Your task to perform on an android device: toggle notifications settings in the gmail app Image 0: 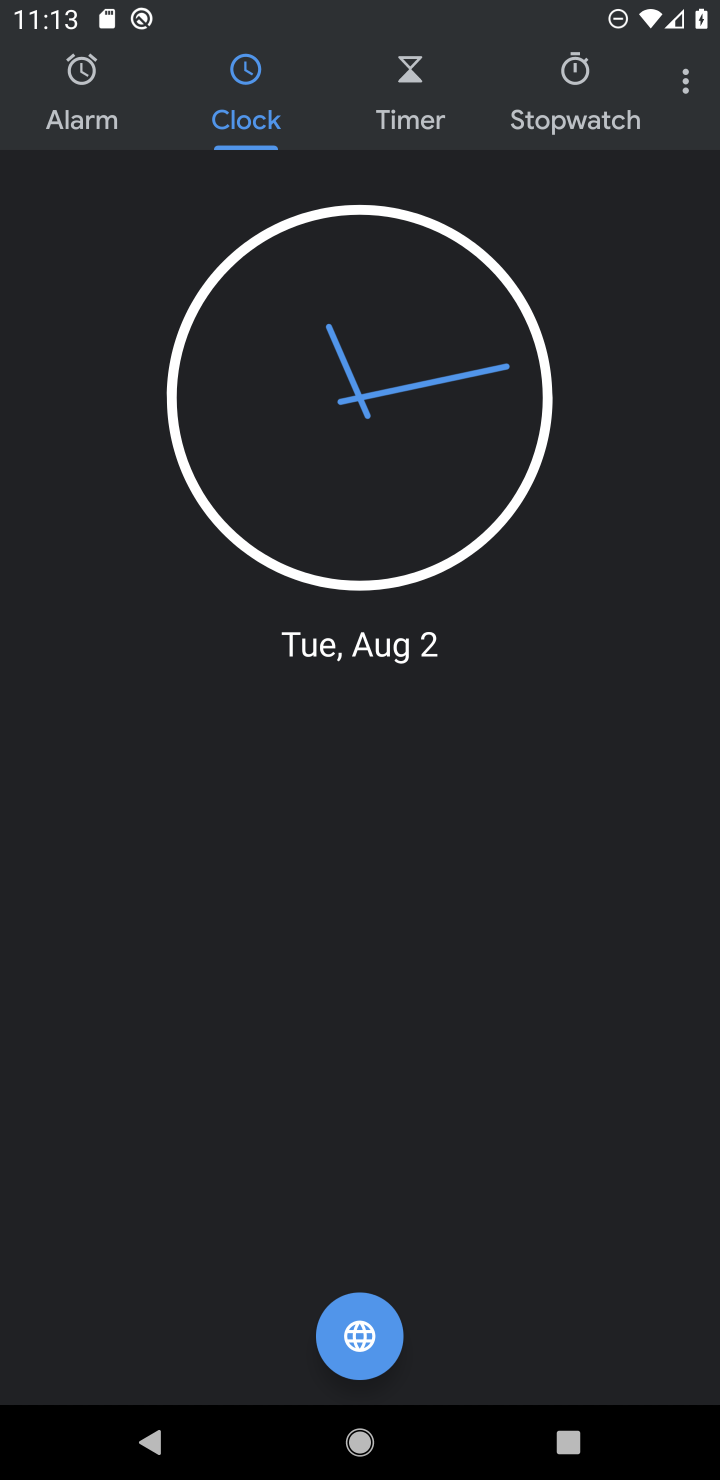
Step 0: press home button
Your task to perform on an android device: toggle notifications settings in the gmail app Image 1: 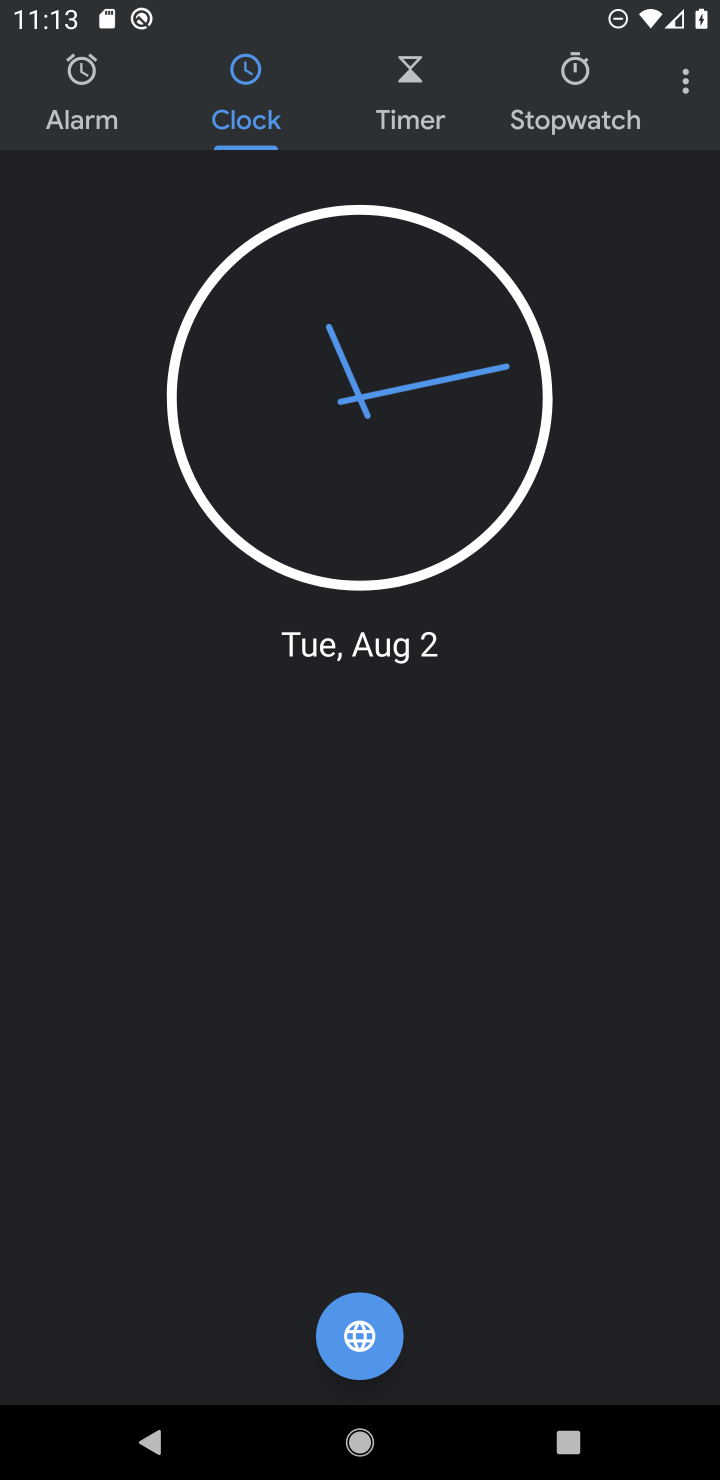
Step 1: click (529, 415)
Your task to perform on an android device: toggle notifications settings in the gmail app Image 2: 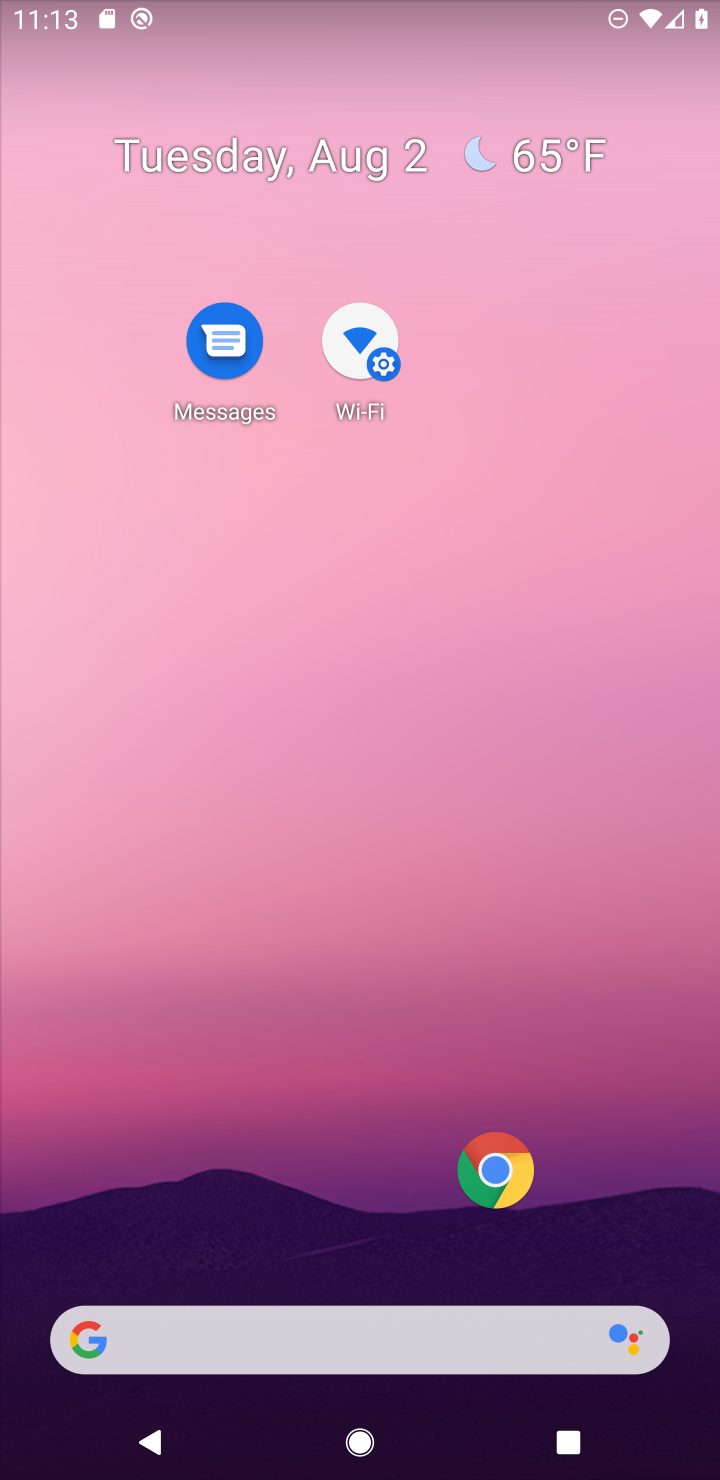
Step 2: drag from (452, 1038) to (452, 743)
Your task to perform on an android device: toggle notifications settings in the gmail app Image 3: 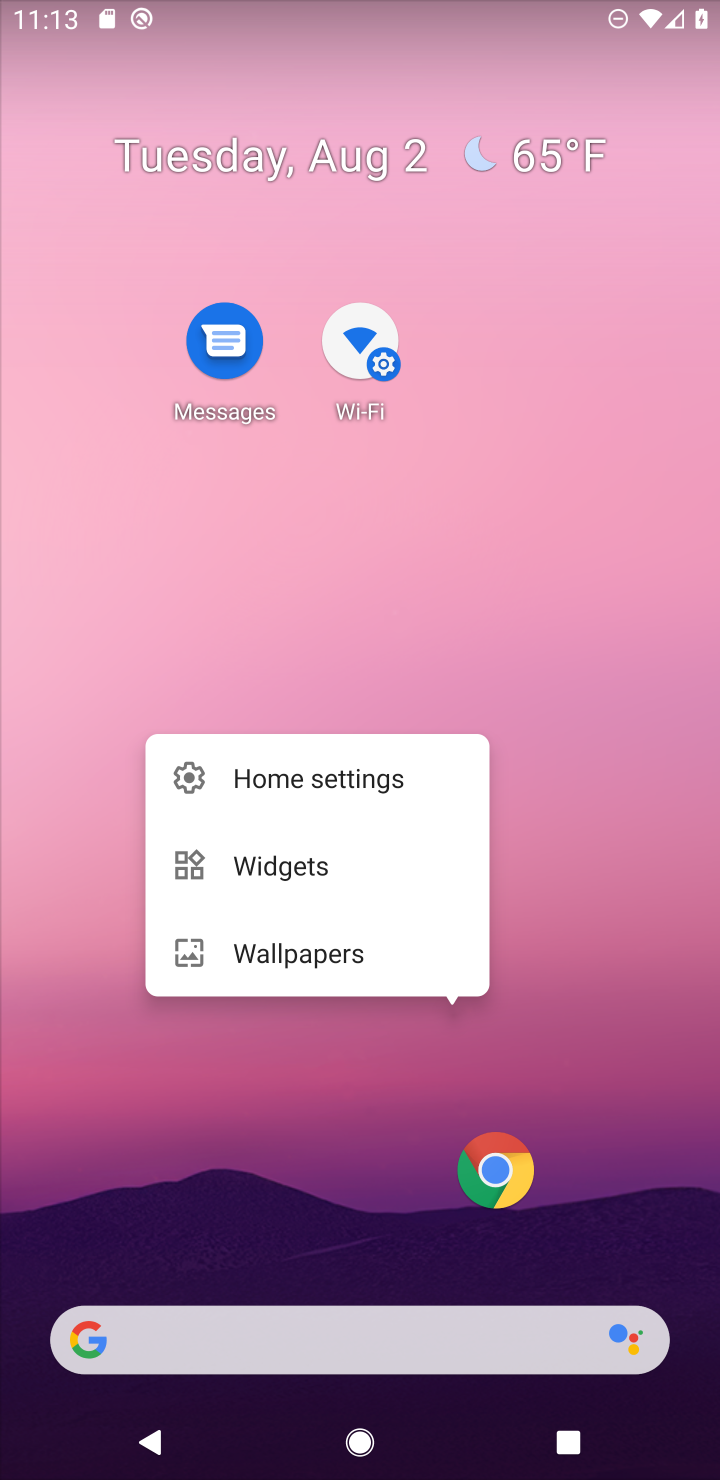
Step 3: click (363, 1170)
Your task to perform on an android device: toggle notifications settings in the gmail app Image 4: 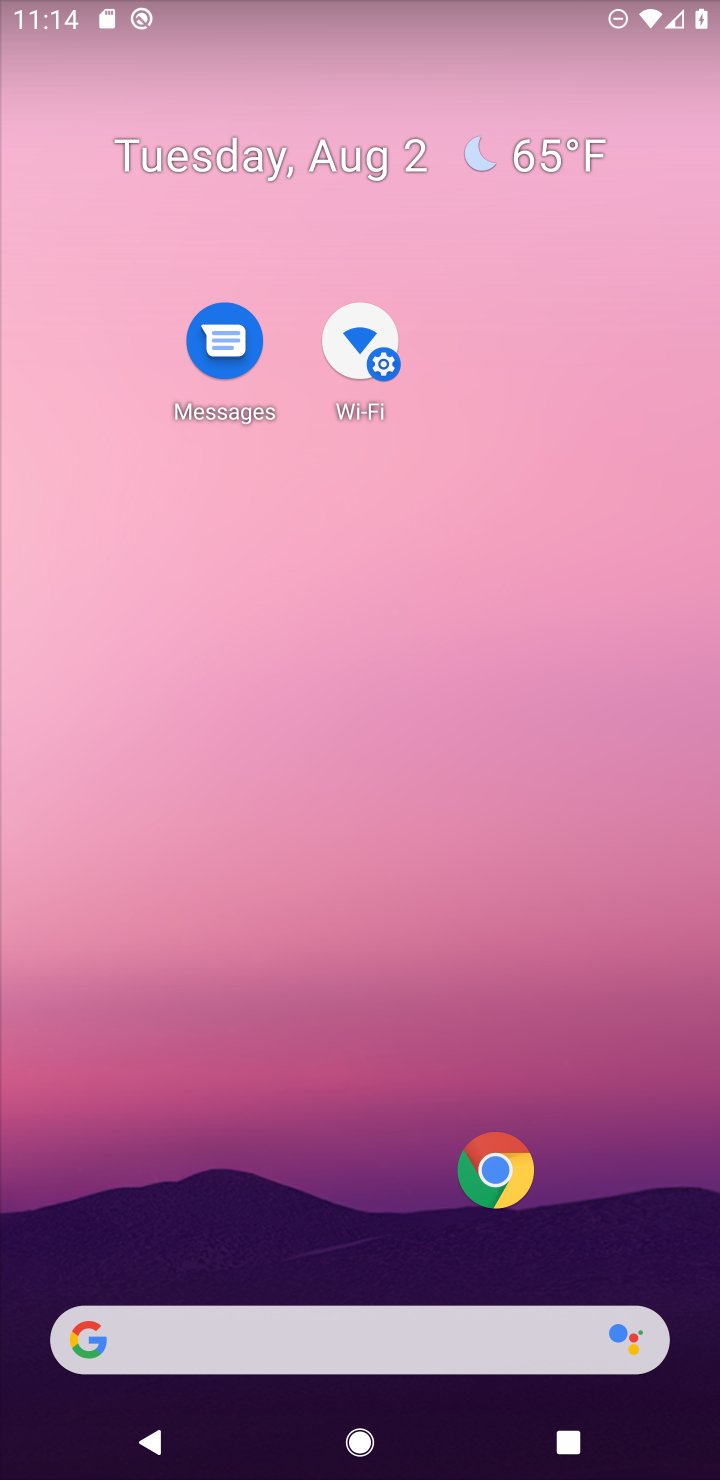
Step 4: drag from (324, 1060) to (347, 327)
Your task to perform on an android device: toggle notifications settings in the gmail app Image 5: 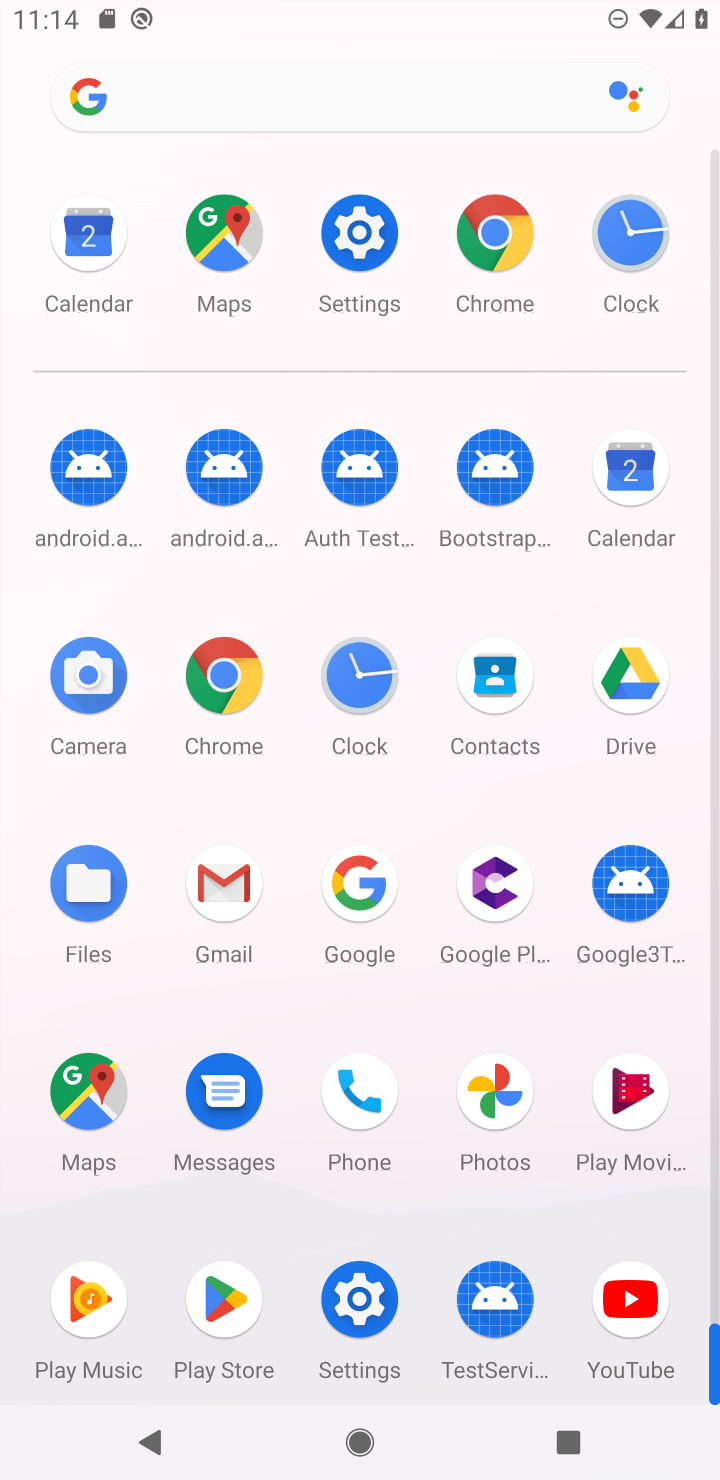
Step 5: click (213, 868)
Your task to perform on an android device: toggle notifications settings in the gmail app Image 6: 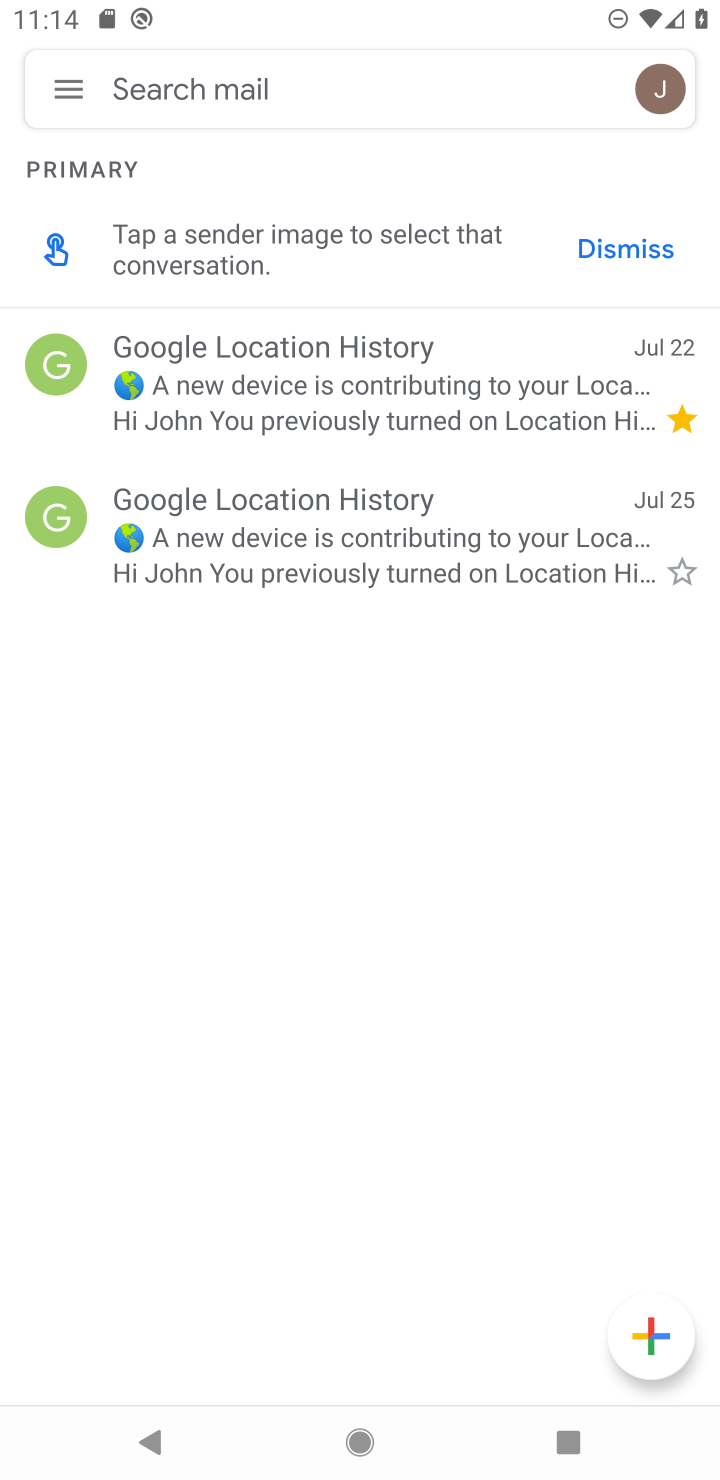
Step 6: drag from (396, 1052) to (471, 726)
Your task to perform on an android device: toggle notifications settings in the gmail app Image 7: 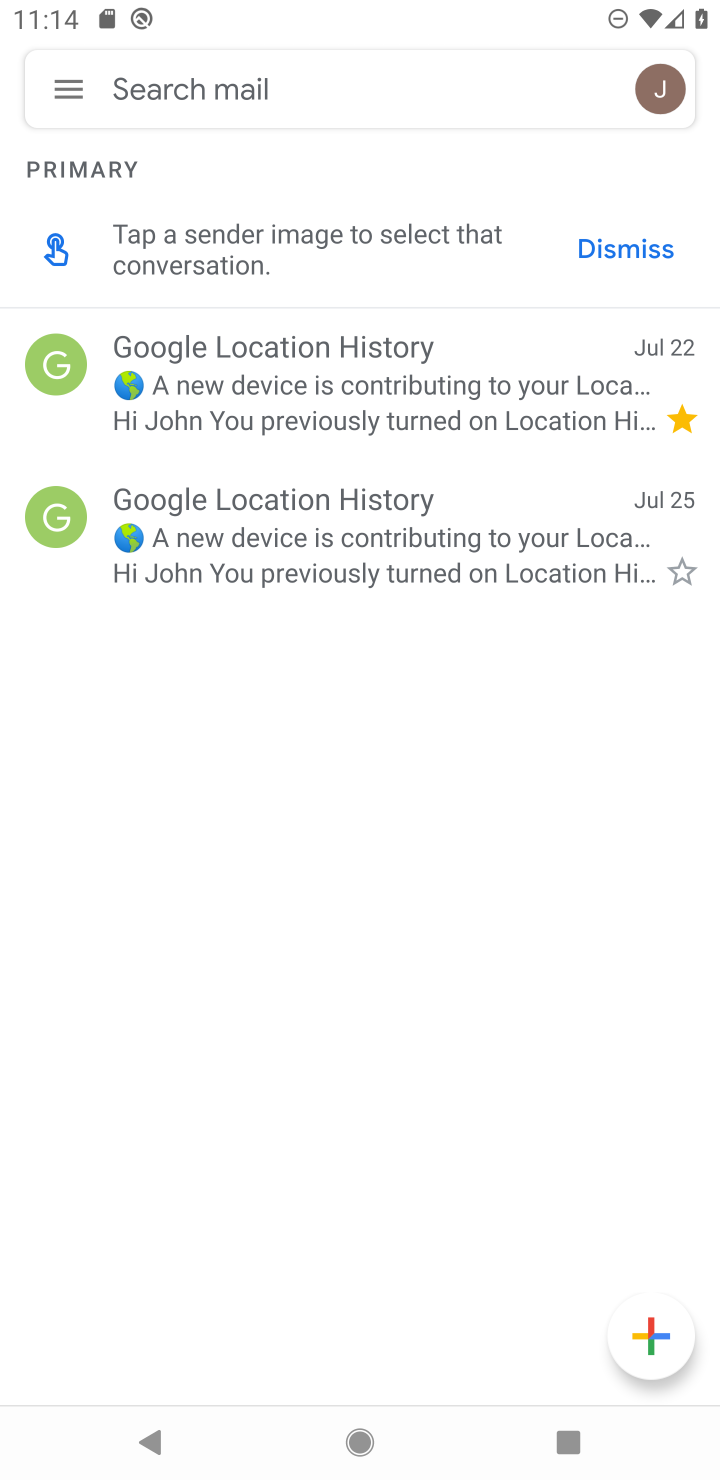
Step 7: click (65, 99)
Your task to perform on an android device: toggle notifications settings in the gmail app Image 8: 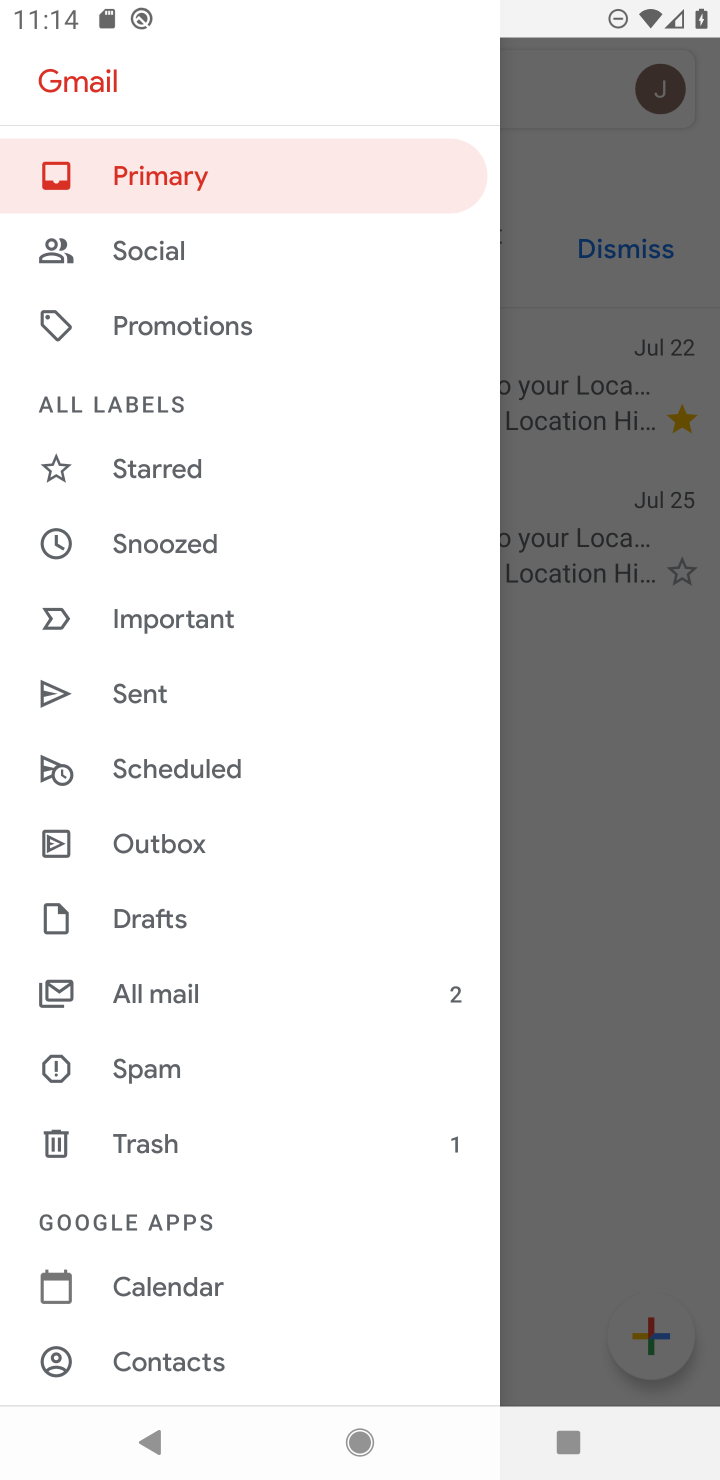
Step 8: drag from (224, 1163) to (378, 448)
Your task to perform on an android device: toggle notifications settings in the gmail app Image 9: 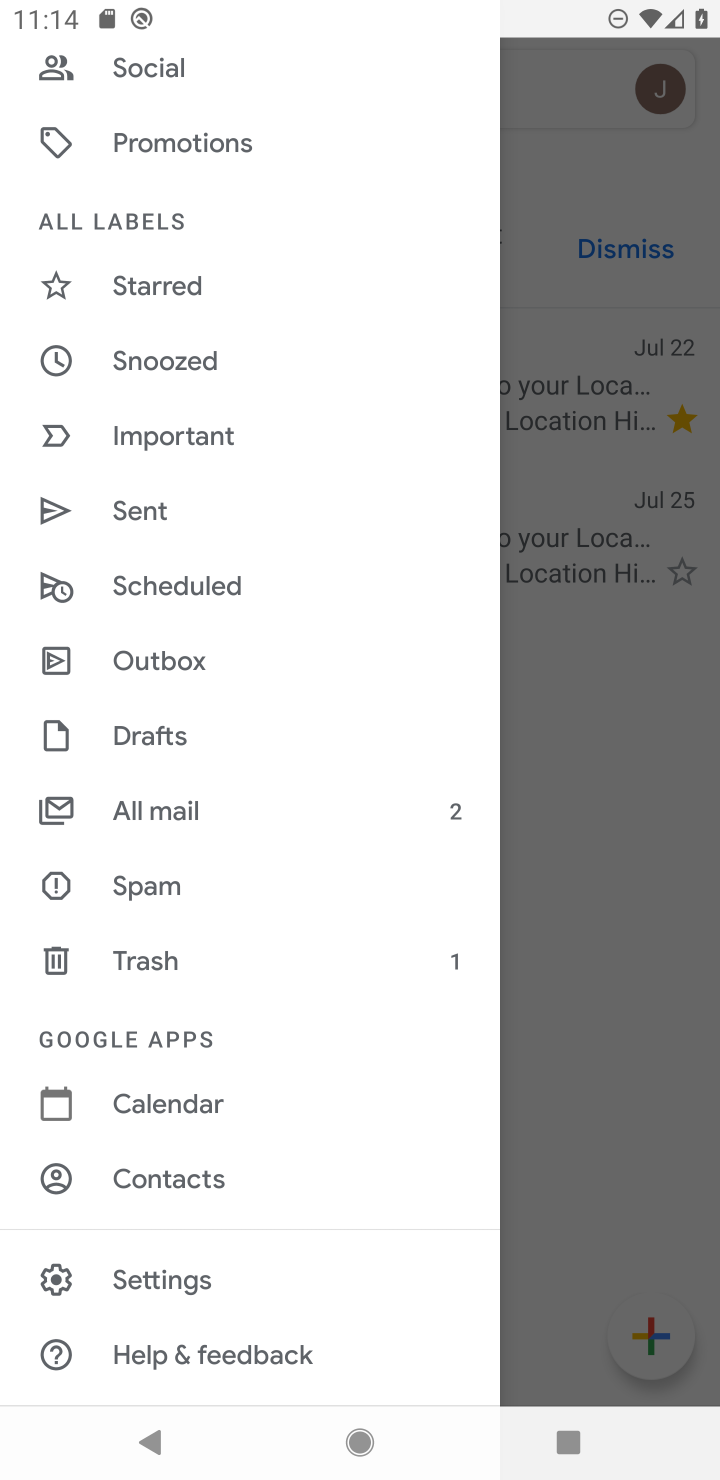
Step 9: click (143, 1277)
Your task to perform on an android device: toggle notifications settings in the gmail app Image 10: 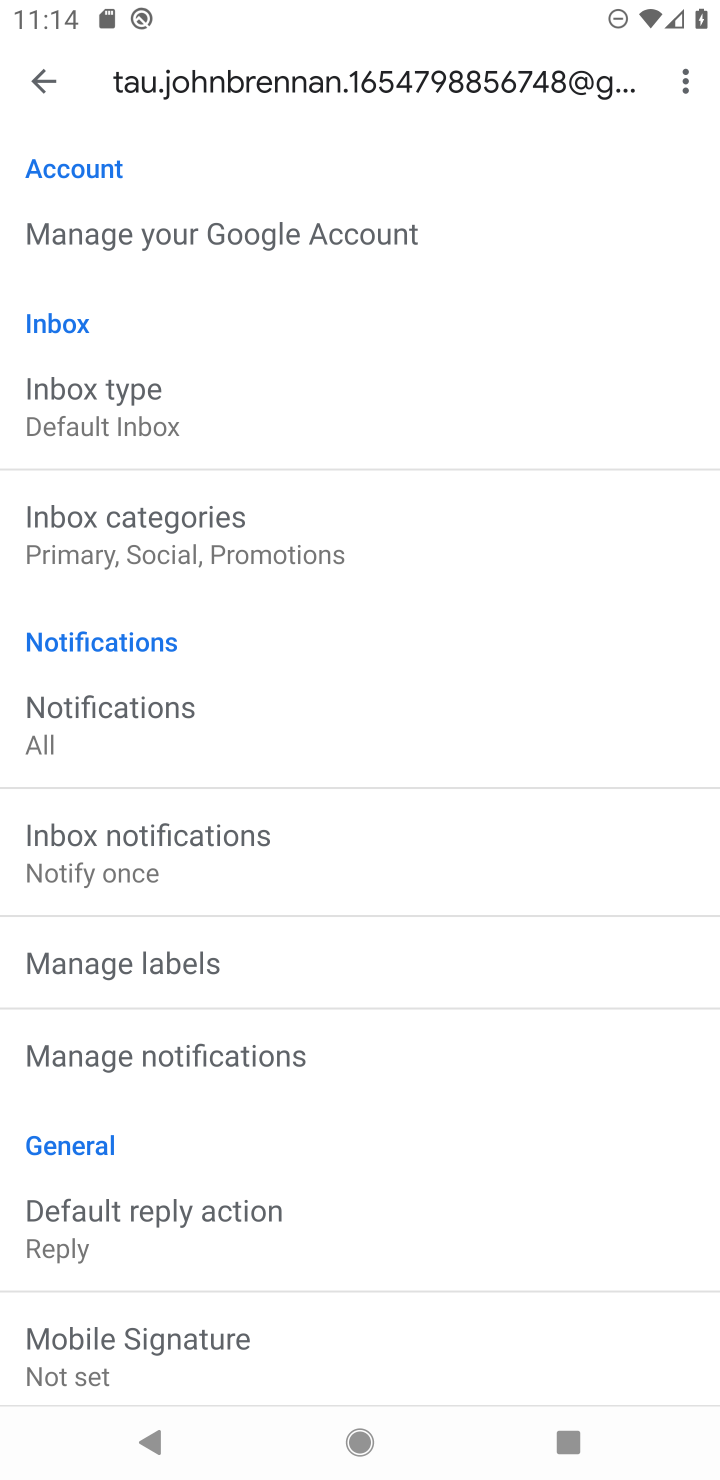
Step 10: drag from (330, 1257) to (398, 423)
Your task to perform on an android device: toggle notifications settings in the gmail app Image 11: 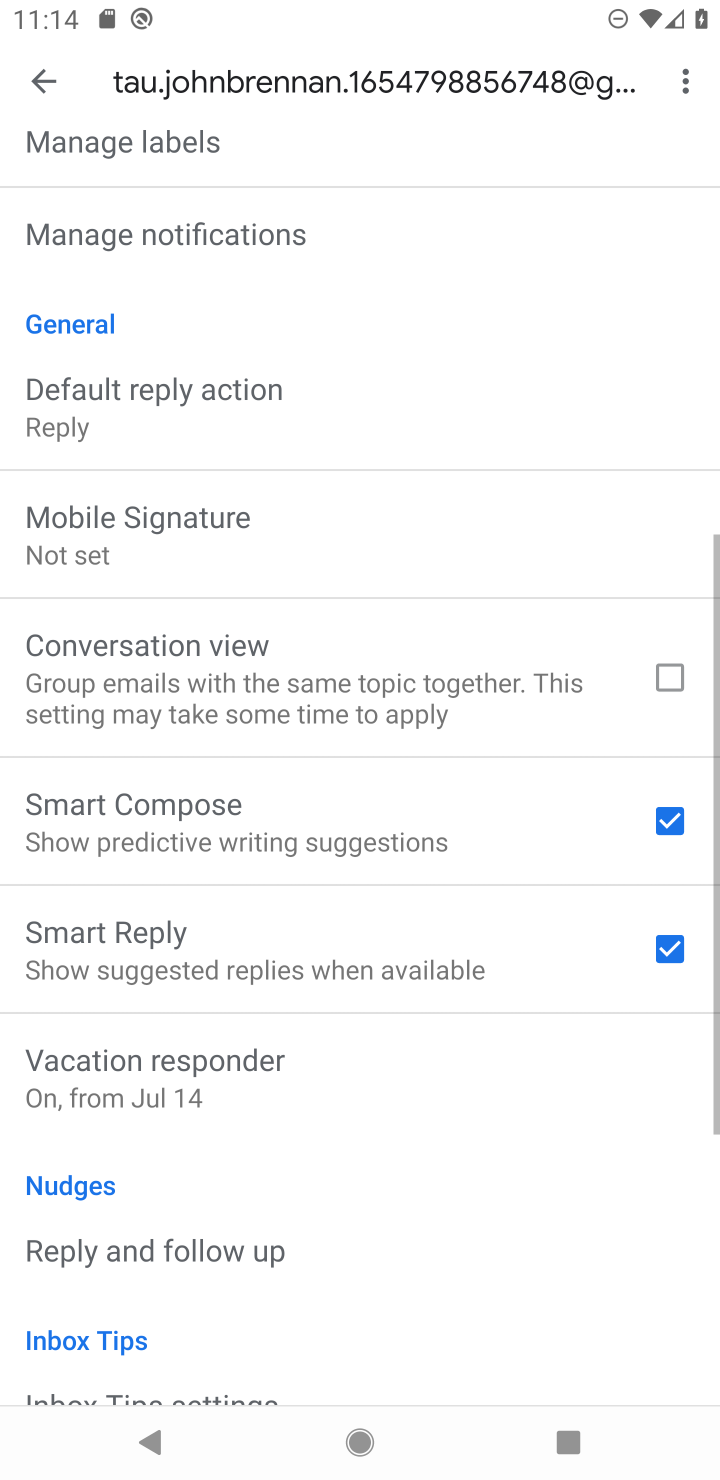
Step 11: drag from (335, 1148) to (330, 605)
Your task to perform on an android device: toggle notifications settings in the gmail app Image 12: 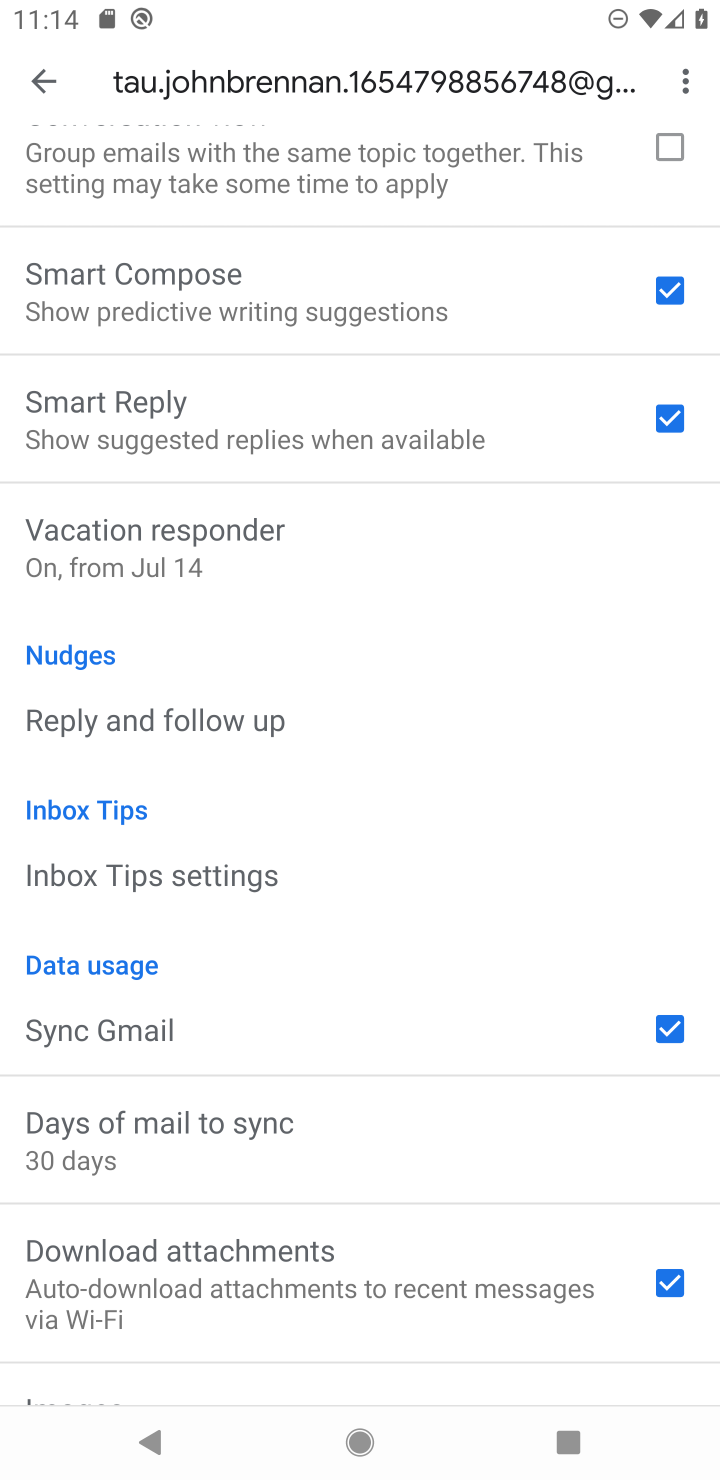
Step 12: drag from (276, 948) to (259, 556)
Your task to perform on an android device: toggle notifications settings in the gmail app Image 13: 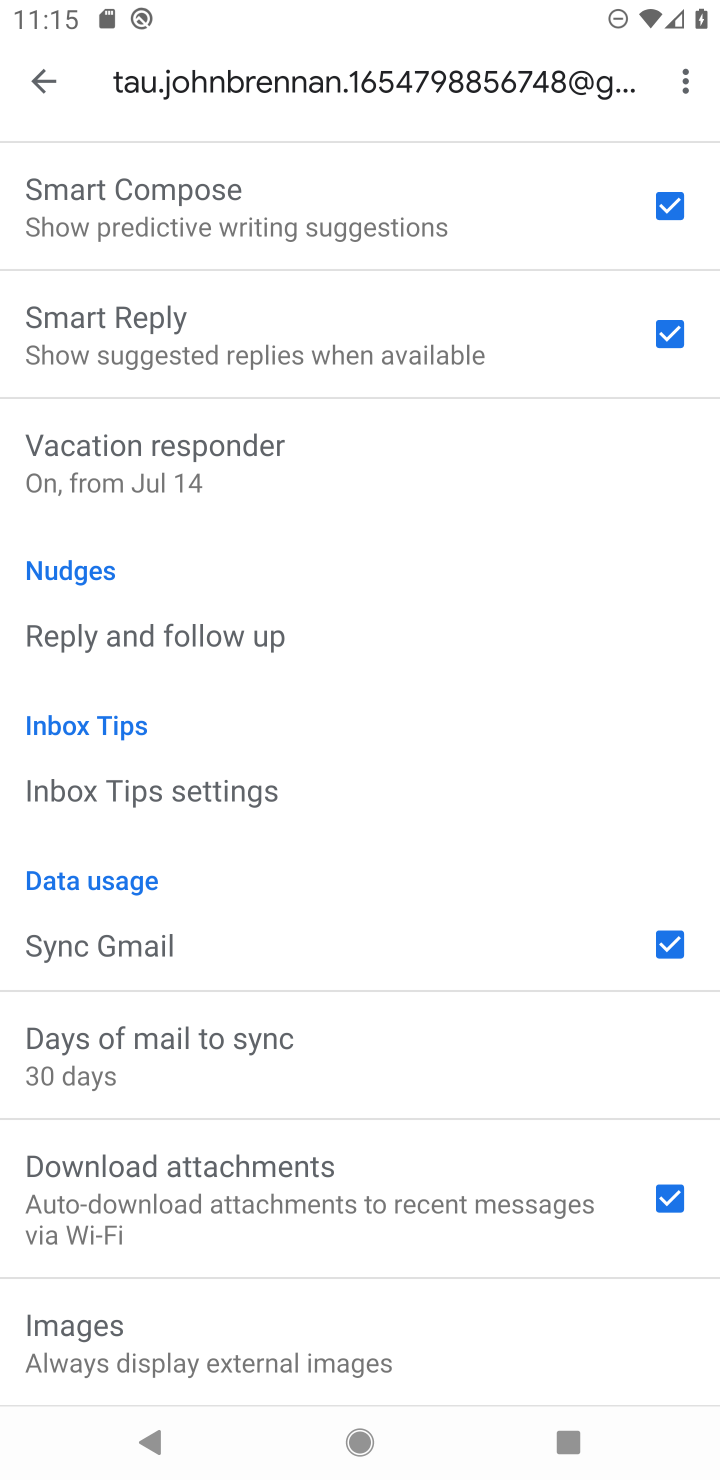
Step 13: drag from (276, 1148) to (322, 654)
Your task to perform on an android device: toggle notifications settings in the gmail app Image 14: 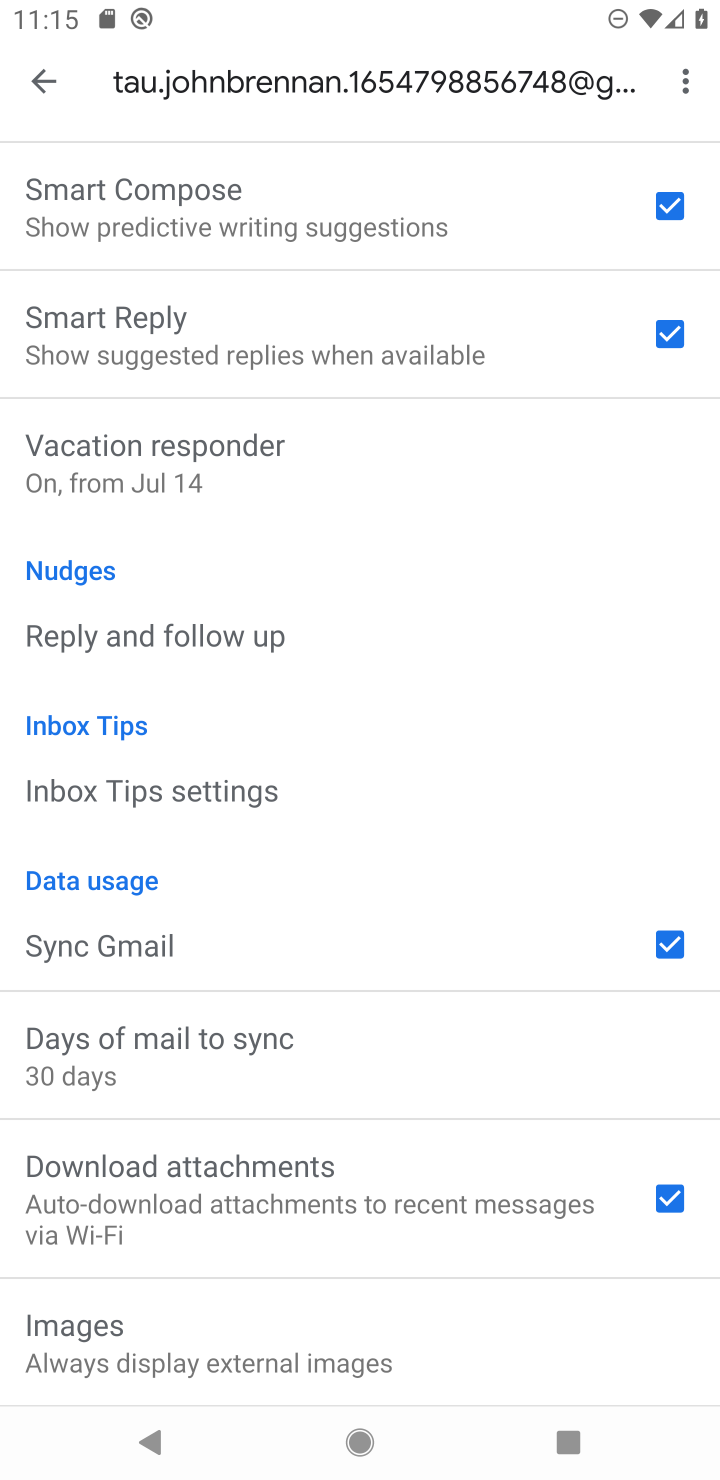
Step 14: drag from (308, 1245) to (391, 685)
Your task to perform on an android device: toggle notifications settings in the gmail app Image 15: 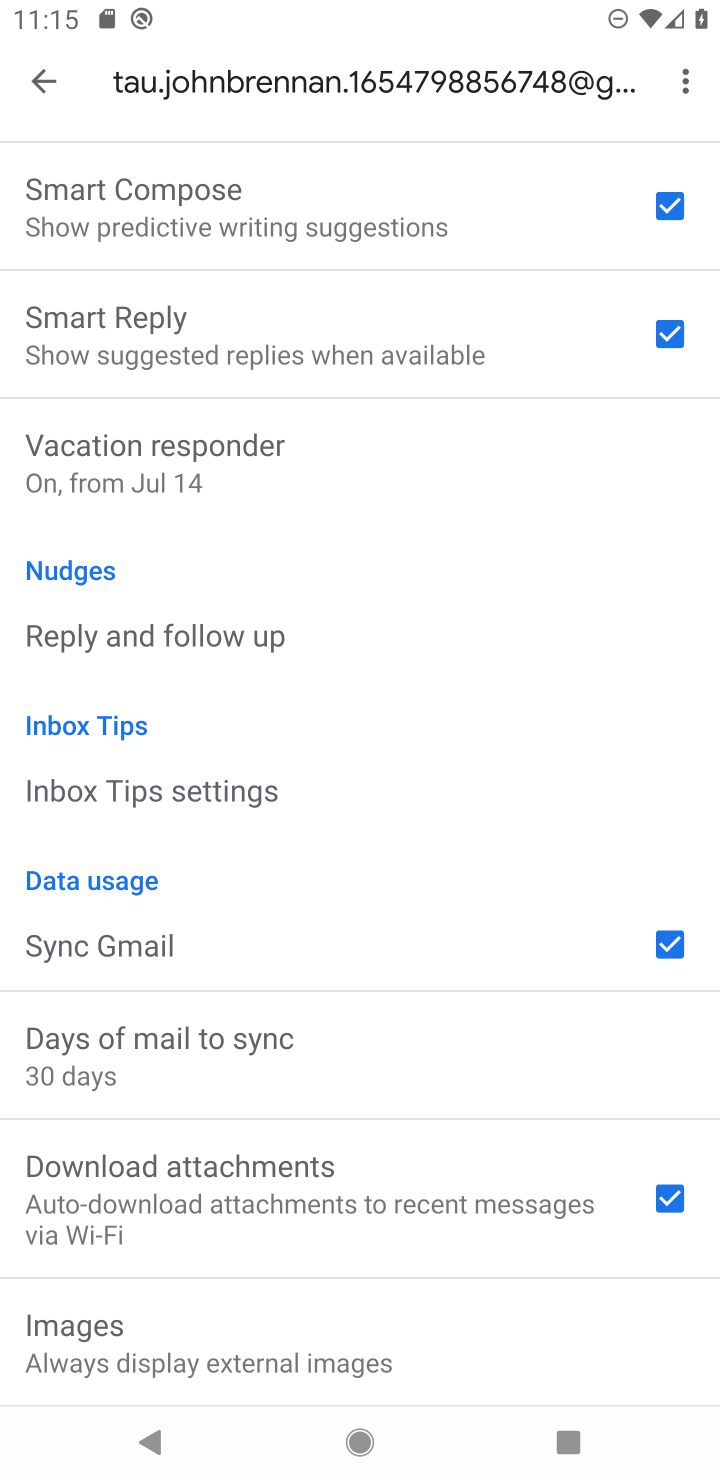
Step 15: drag from (301, 1224) to (359, 611)
Your task to perform on an android device: toggle notifications settings in the gmail app Image 16: 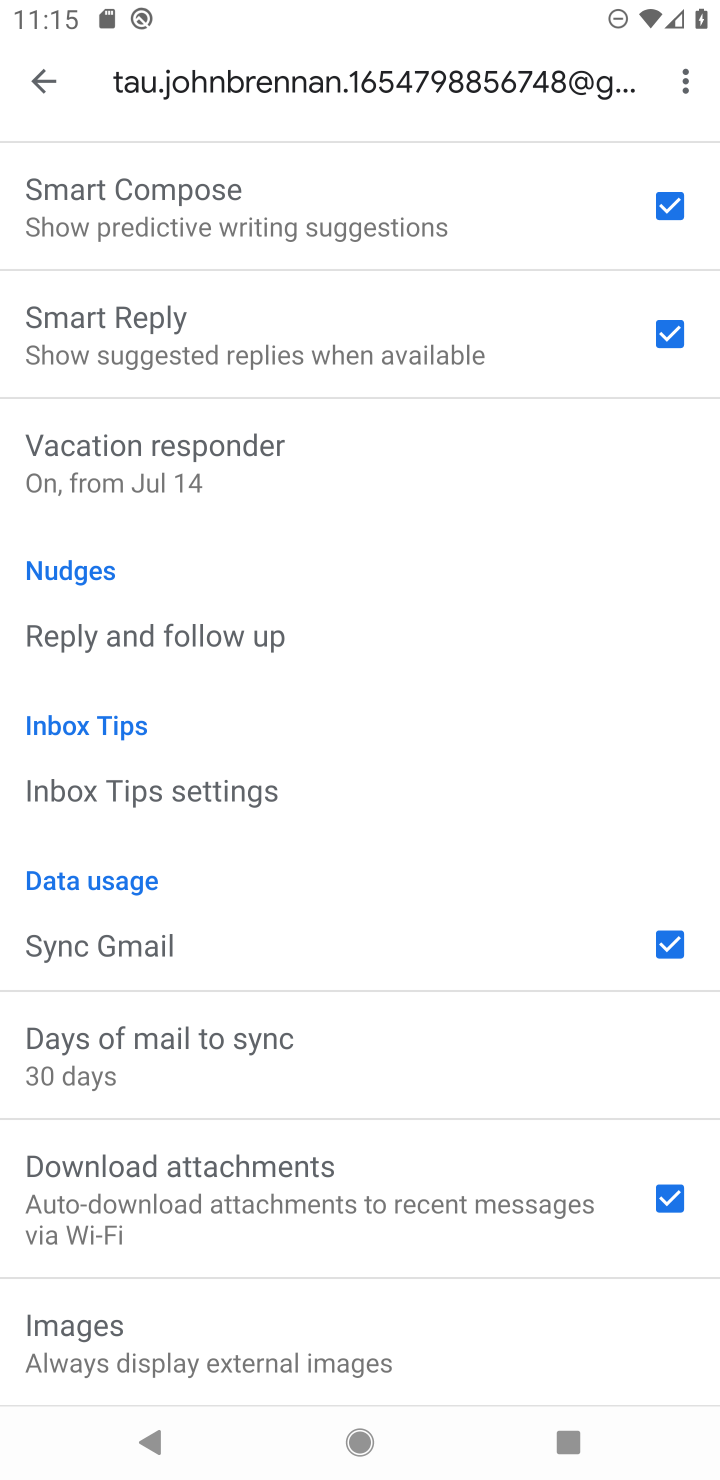
Step 16: drag from (379, 993) to (418, 450)
Your task to perform on an android device: toggle notifications settings in the gmail app Image 17: 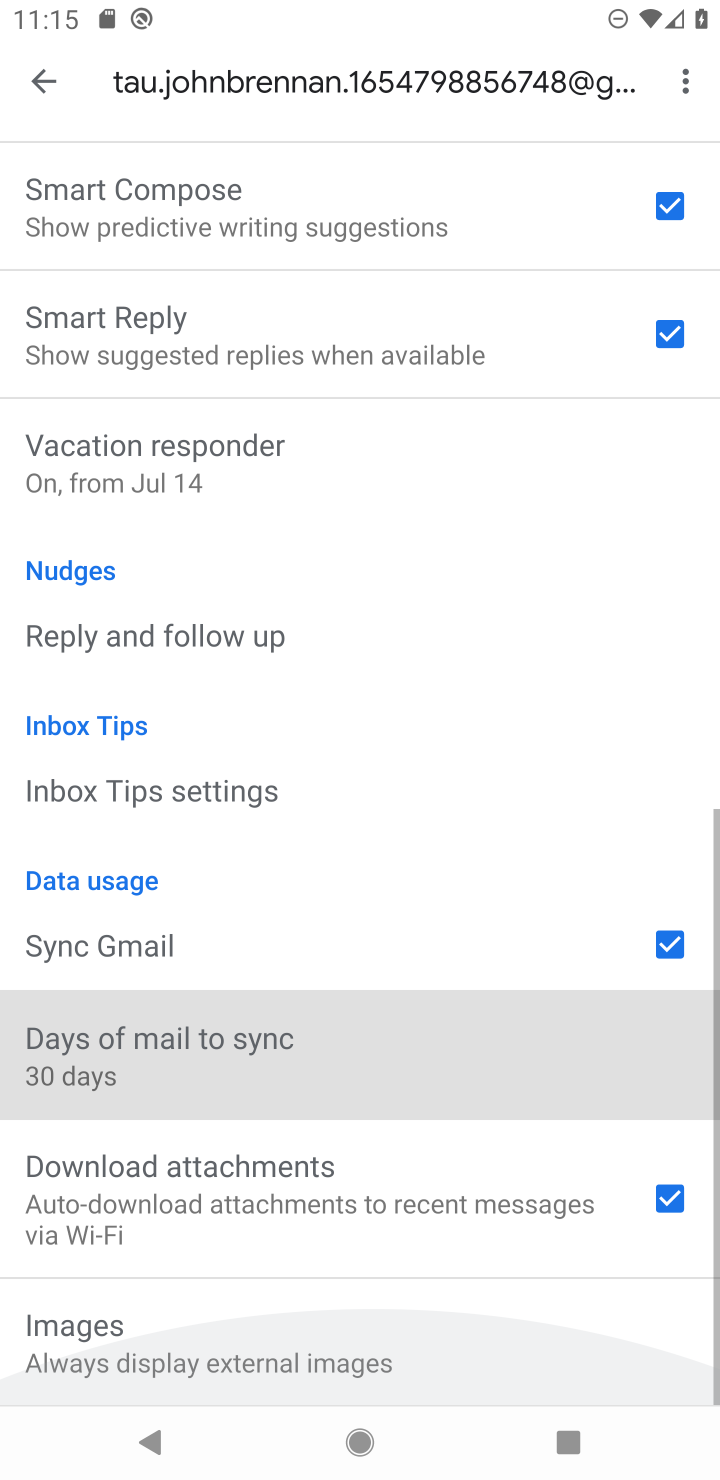
Step 17: drag from (417, 476) to (365, 1376)
Your task to perform on an android device: toggle notifications settings in the gmail app Image 18: 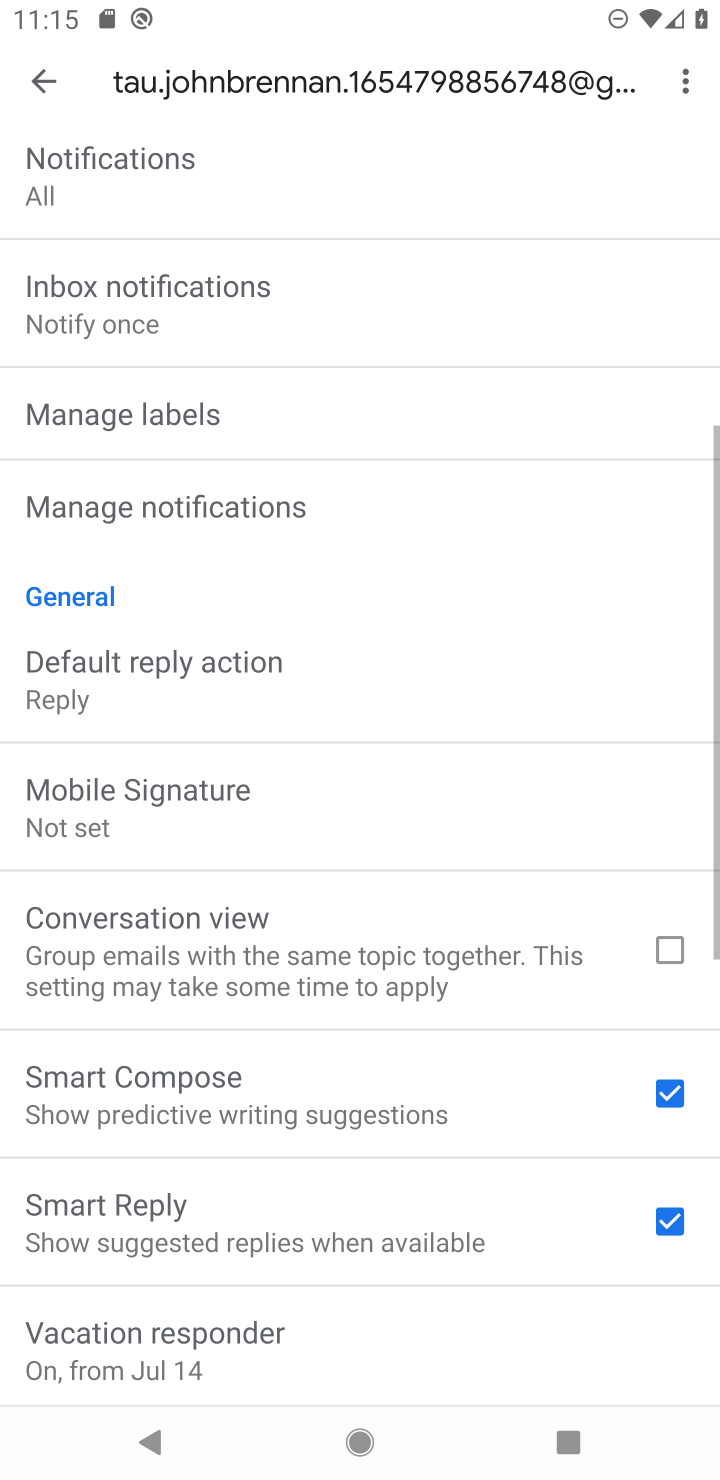
Step 18: drag from (519, 1088) to (505, 599)
Your task to perform on an android device: toggle notifications settings in the gmail app Image 19: 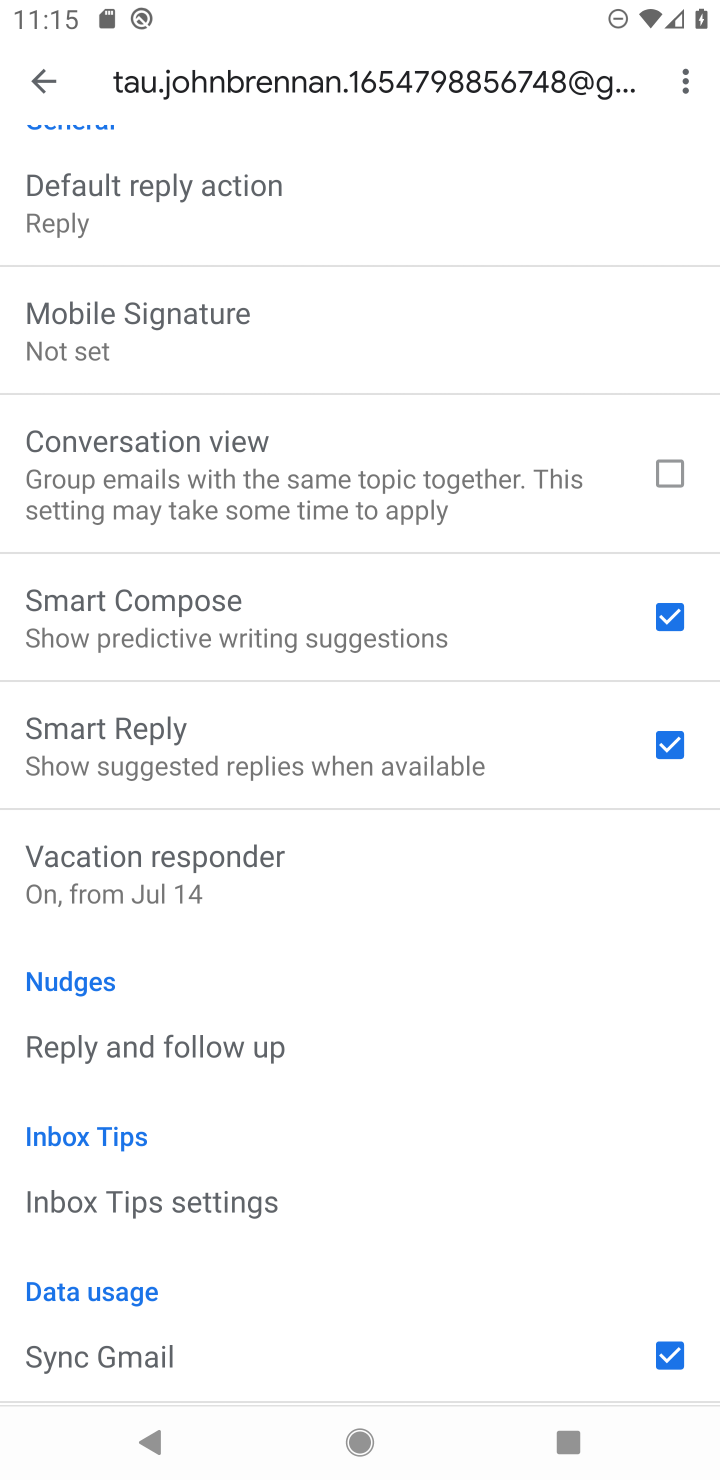
Step 19: drag from (252, 950) to (500, 282)
Your task to perform on an android device: toggle notifications settings in the gmail app Image 20: 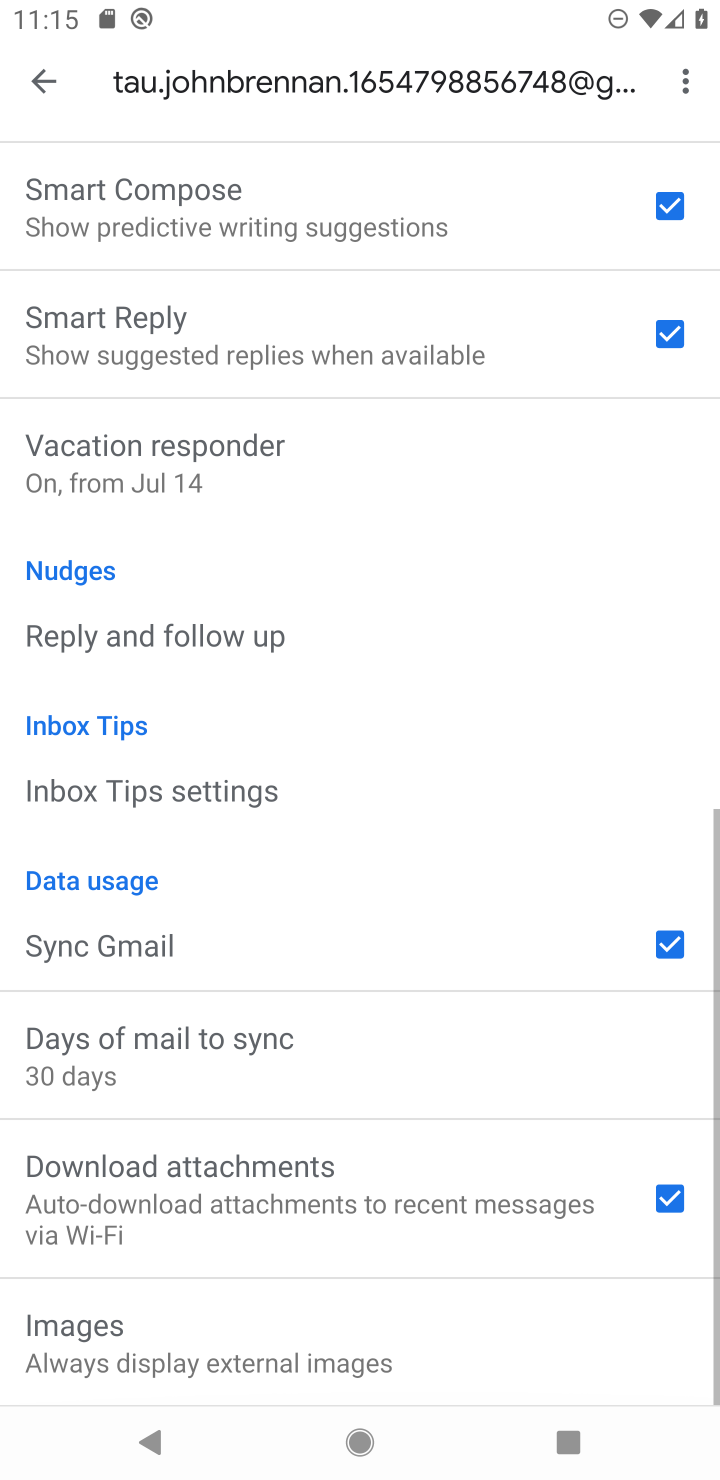
Step 20: drag from (295, 983) to (582, 1476)
Your task to perform on an android device: toggle notifications settings in the gmail app Image 21: 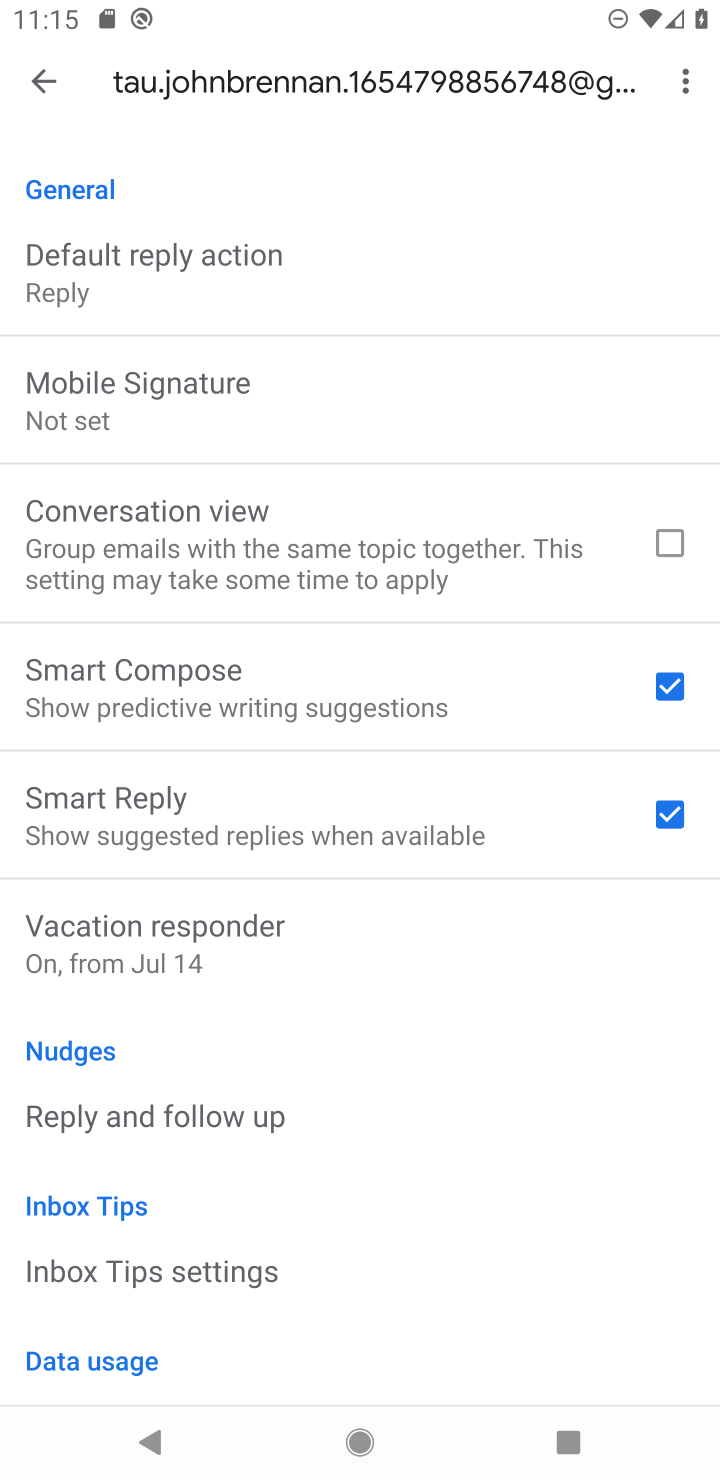
Step 21: drag from (408, 513) to (557, 1479)
Your task to perform on an android device: toggle notifications settings in the gmail app Image 22: 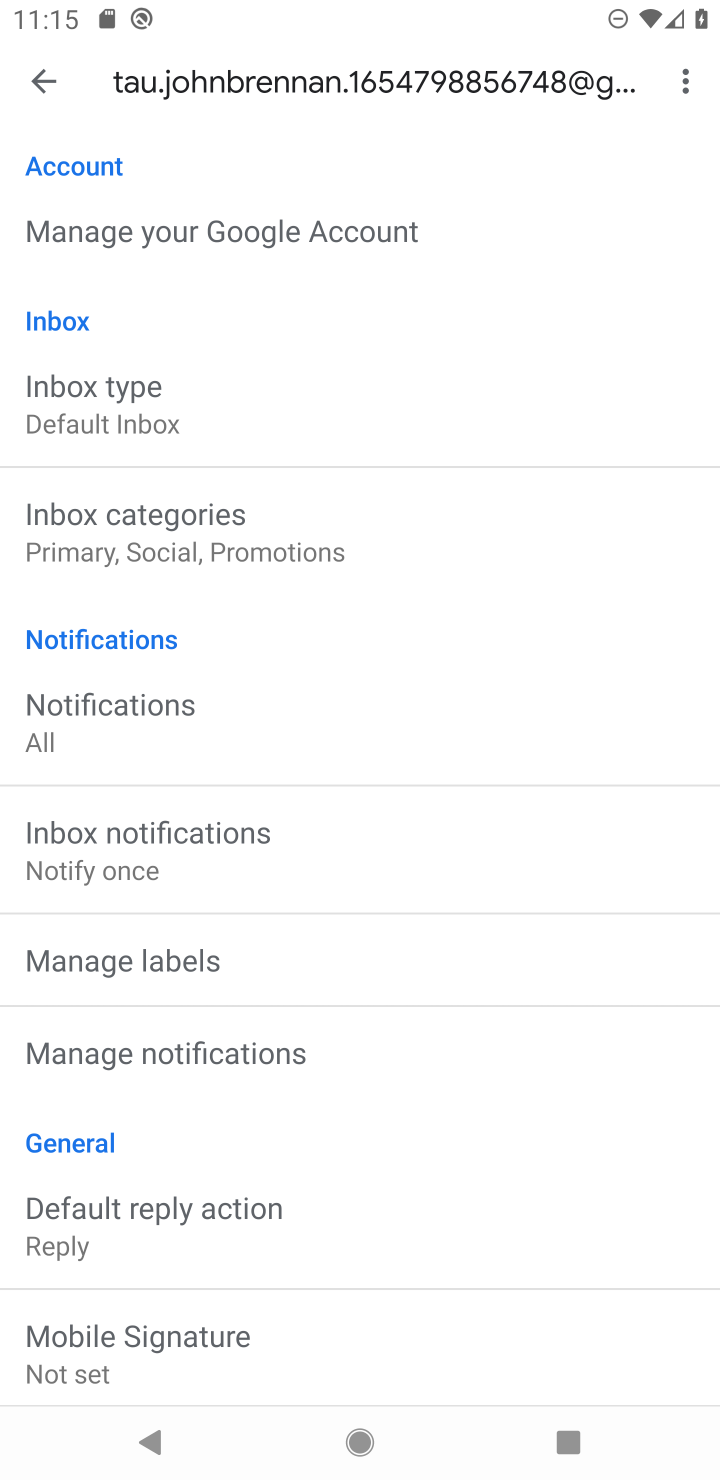
Step 22: click (187, 1056)
Your task to perform on an android device: toggle notifications settings in the gmail app Image 23: 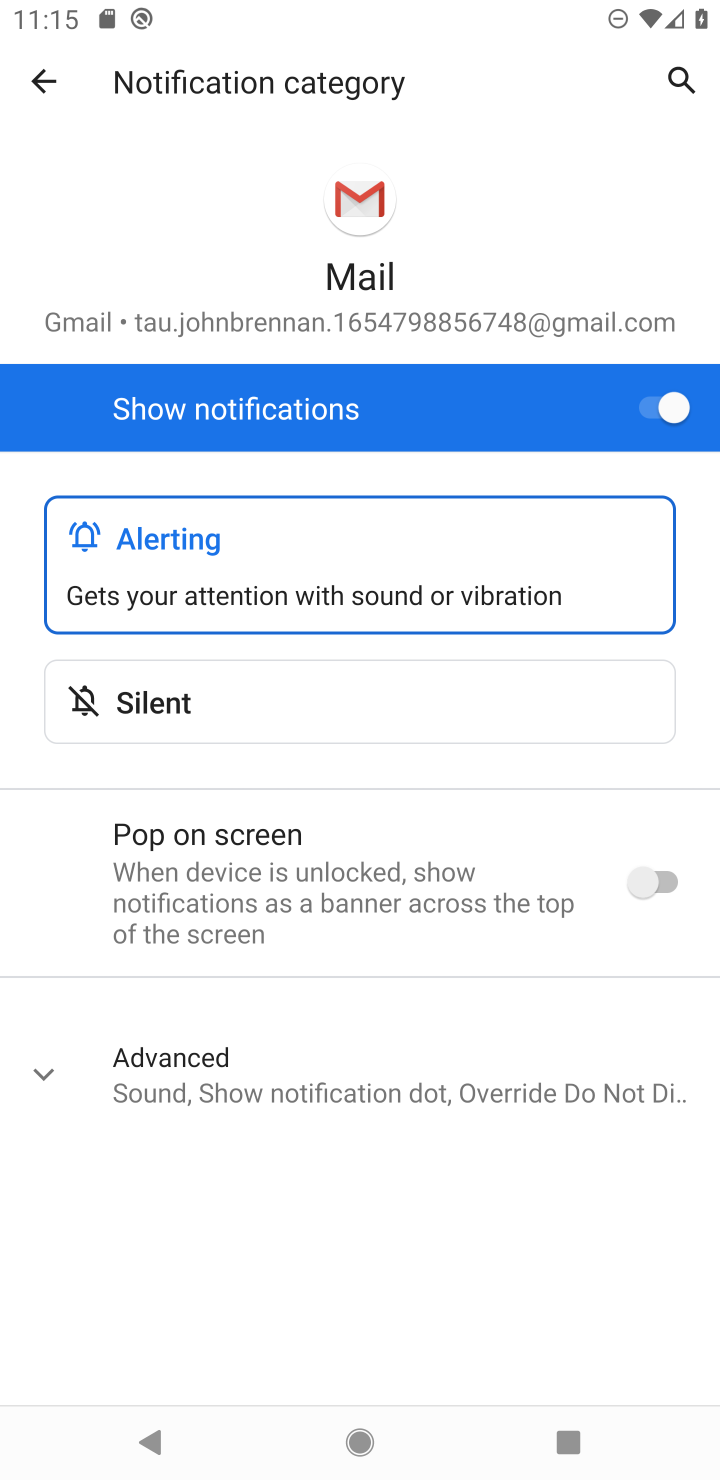
Step 23: drag from (425, 1209) to (371, 747)
Your task to perform on an android device: toggle notifications settings in the gmail app Image 24: 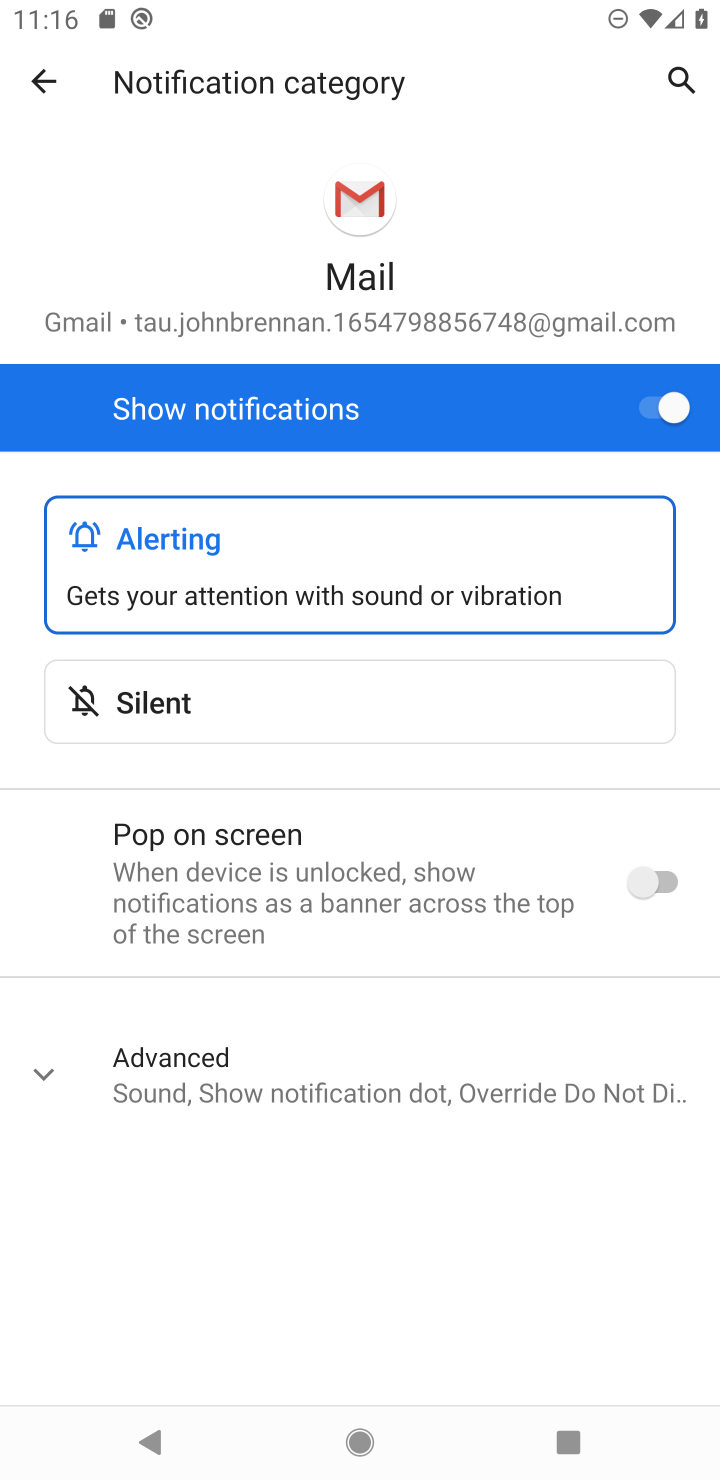
Step 24: drag from (501, 1403) to (718, 769)
Your task to perform on an android device: toggle notifications settings in the gmail app Image 25: 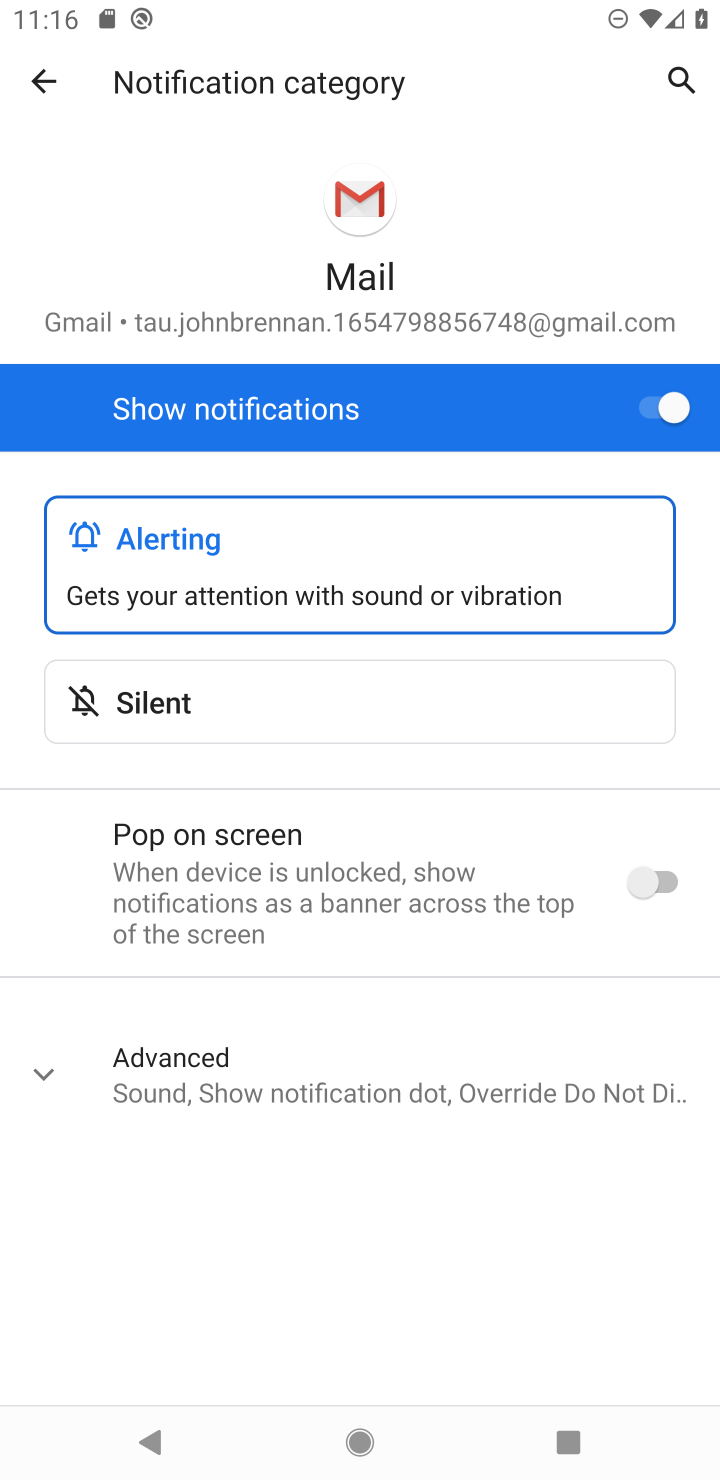
Step 25: drag from (483, 429) to (423, 1153)
Your task to perform on an android device: toggle notifications settings in the gmail app Image 26: 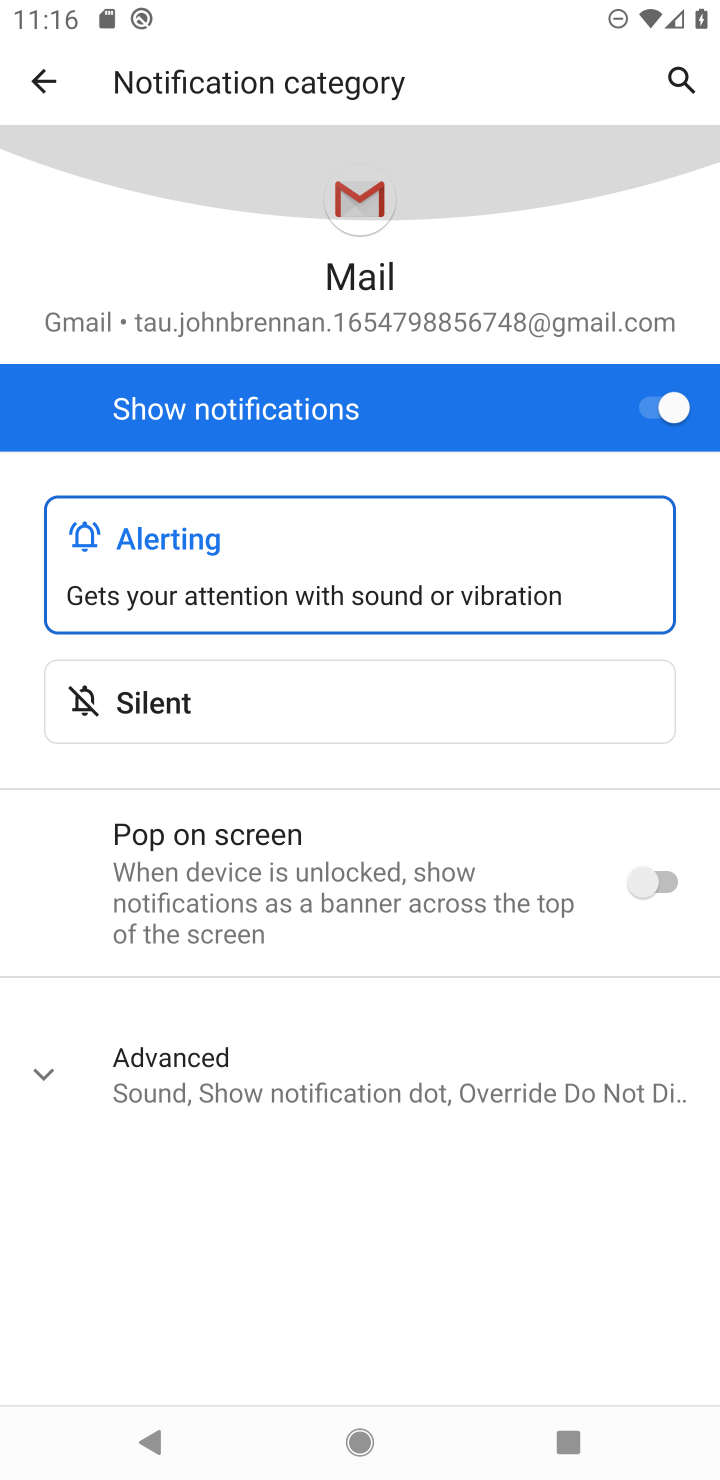
Step 26: drag from (391, 1130) to (487, 626)
Your task to perform on an android device: toggle notifications settings in the gmail app Image 27: 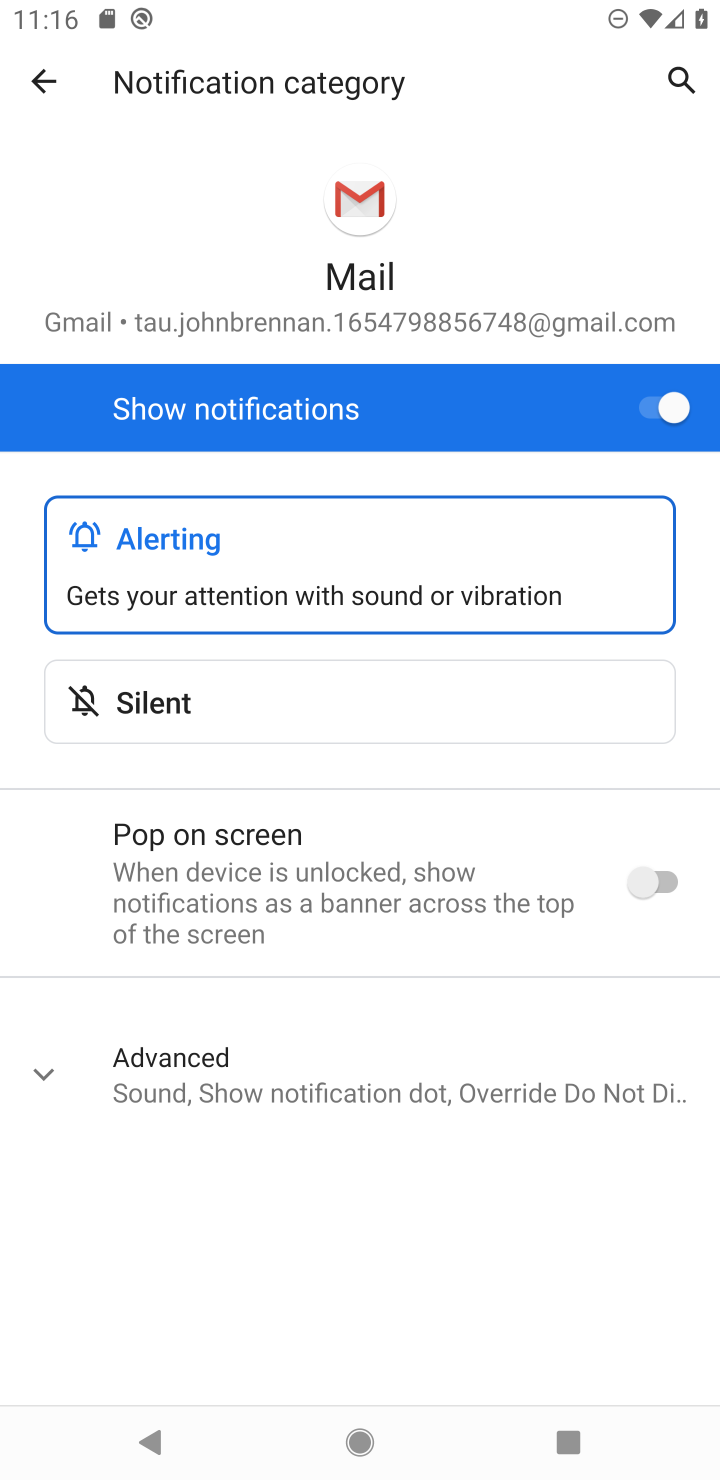
Step 27: drag from (270, 1328) to (428, 669)
Your task to perform on an android device: toggle notifications settings in the gmail app Image 28: 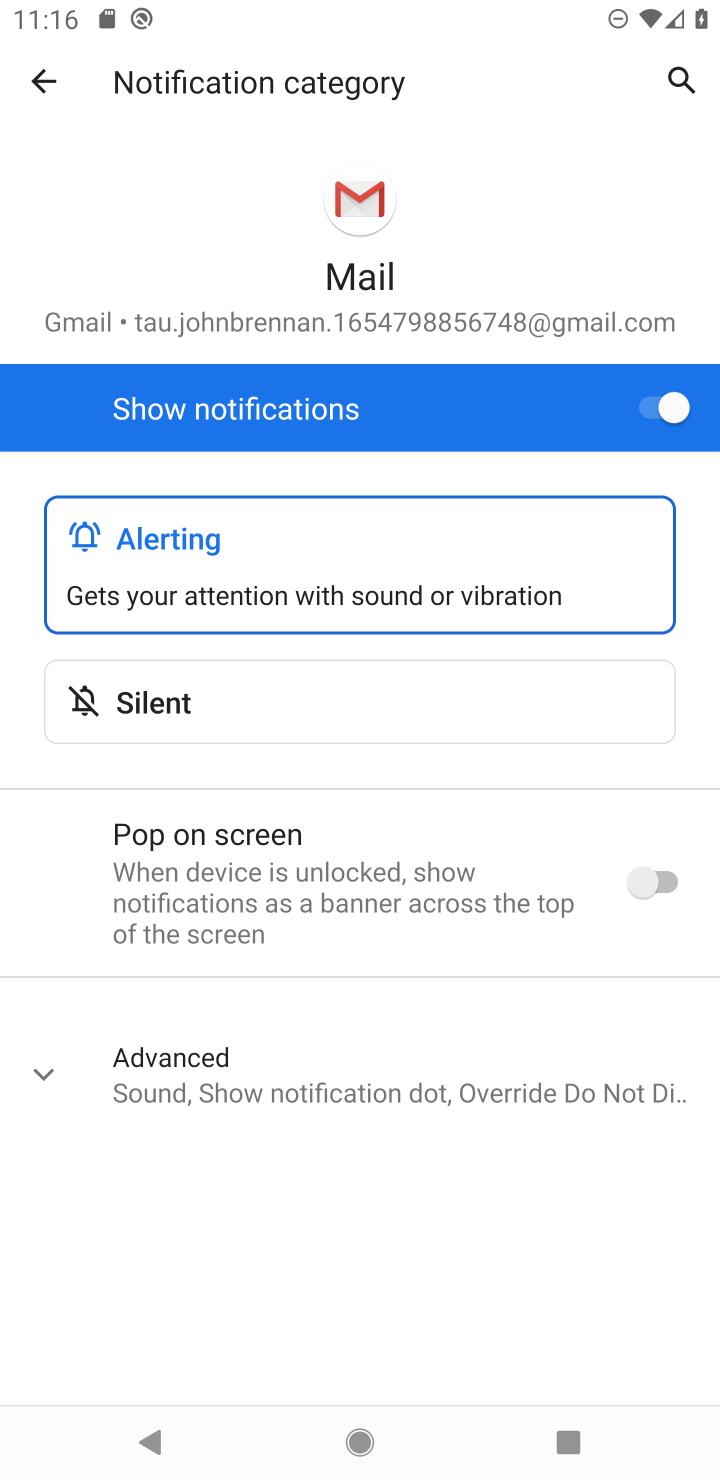
Step 28: click (98, 1085)
Your task to perform on an android device: toggle notifications settings in the gmail app Image 29: 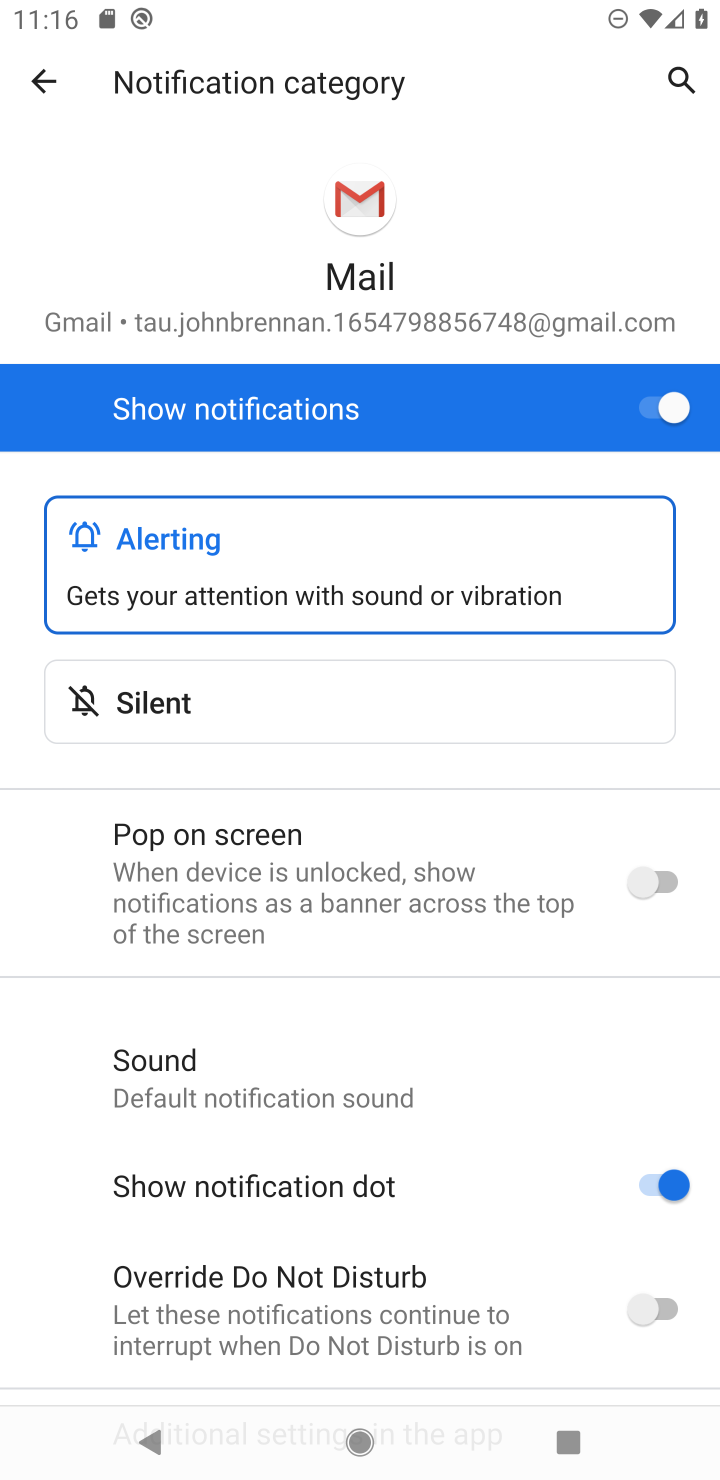
Step 29: drag from (455, 1047) to (575, 517)
Your task to perform on an android device: toggle notifications settings in the gmail app Image 30: 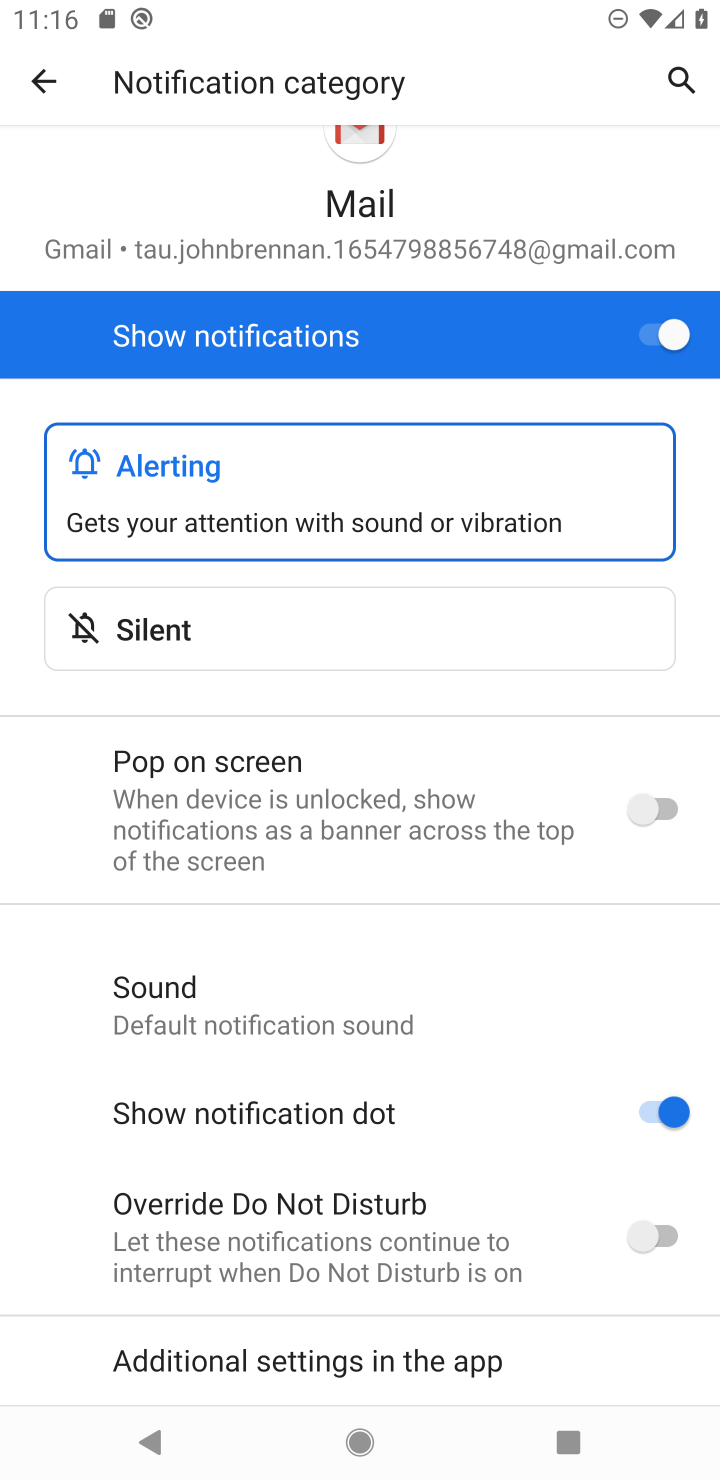
Step 30: drag from (440, 684) to (388, 1273)
Your task to perform on an android device: toggle notifications settings in the gmail app Image 31: 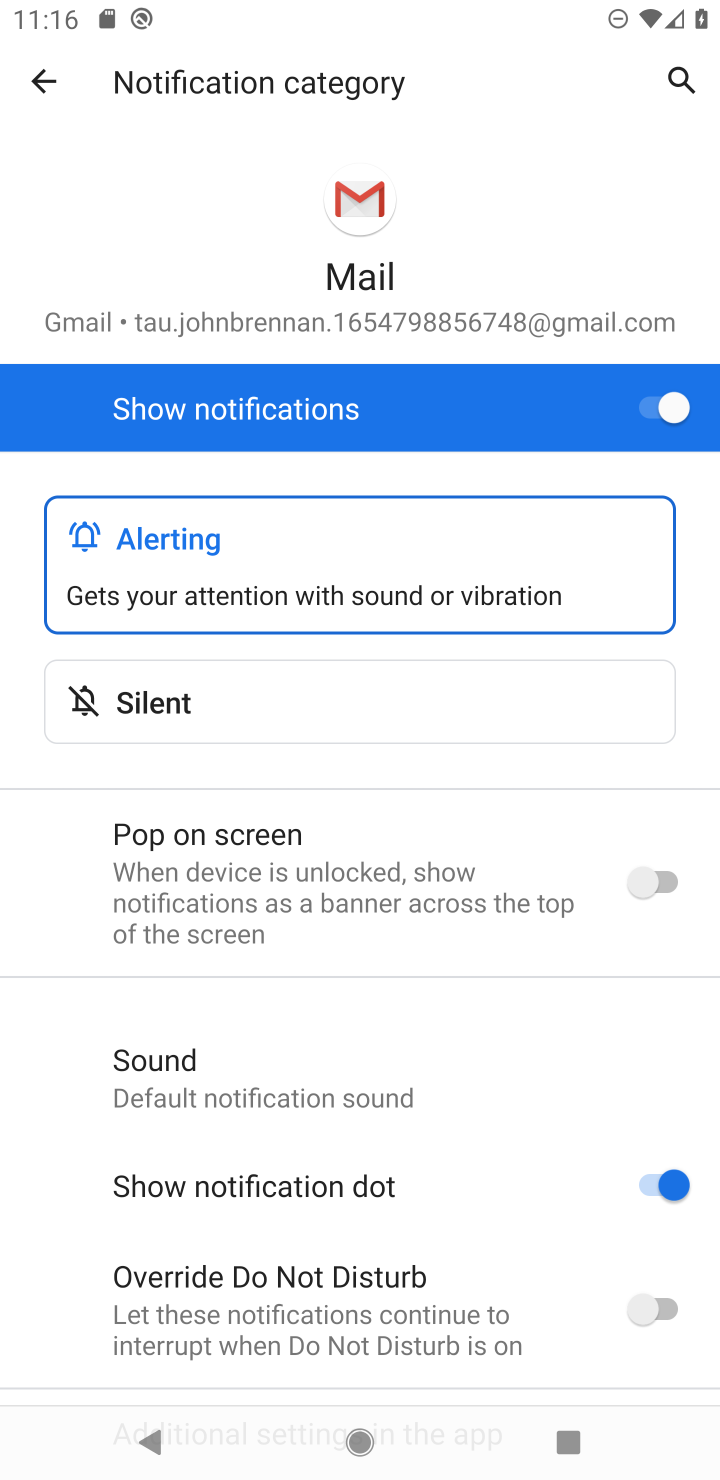
Step 31: drag from (330, 1182) to (369, 794)
Your task to perform on an android device: toggle notifications settings in the gmail app Image 32: 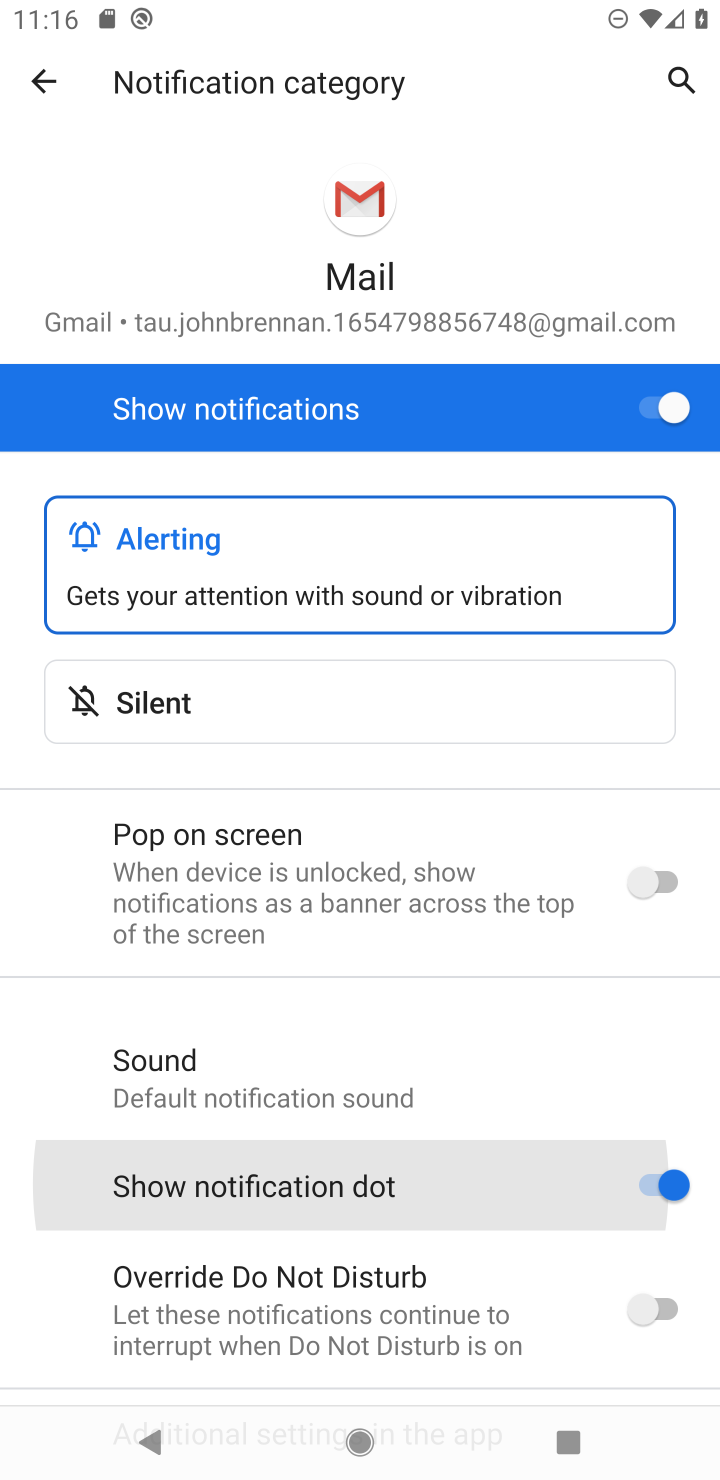
Step 32: drag from (409, 699) to (284, 1475)
Your task to perform on an android device: toggle notifications settings in the gmail app Image 33: 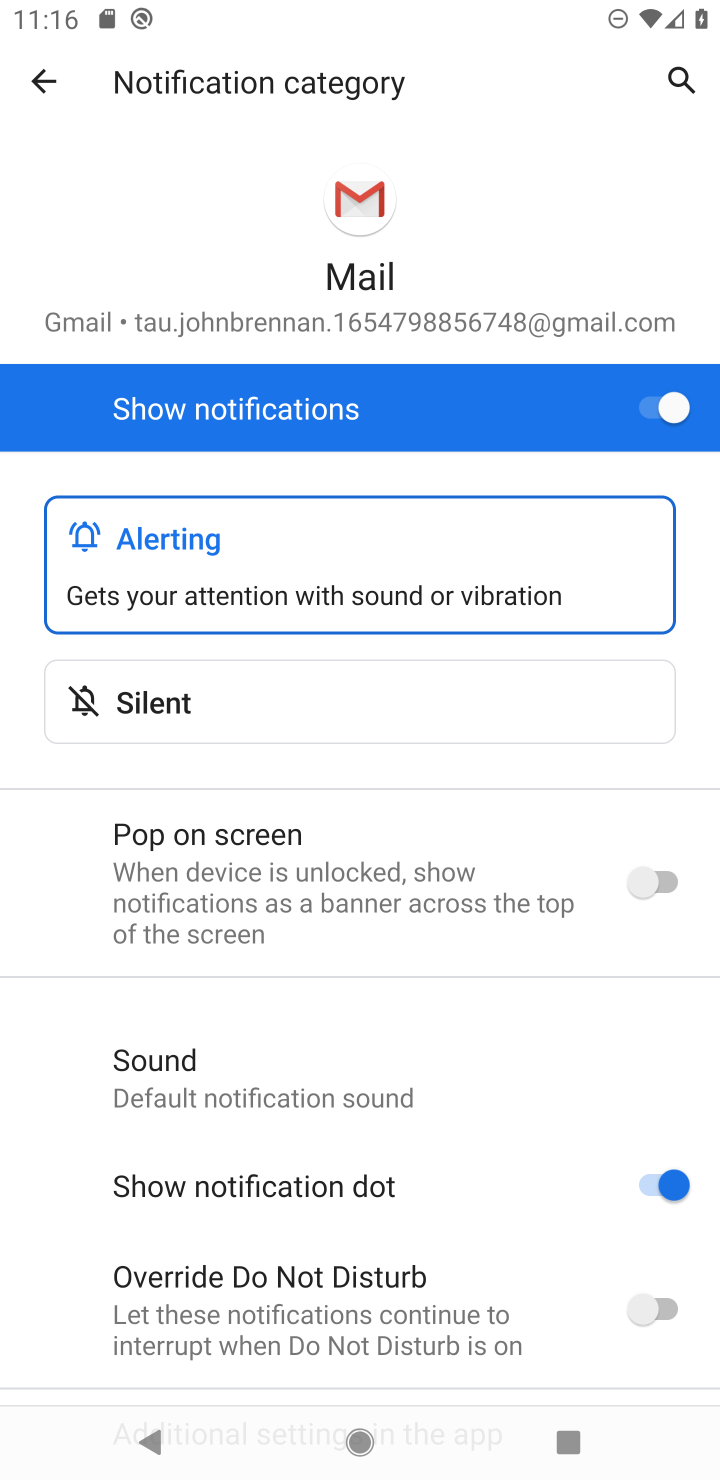
Step 33: drag from (270, 1125) to (544, 1452)
Your task to perform on an android device: toggle notifications settings in the gmail app Image 34: 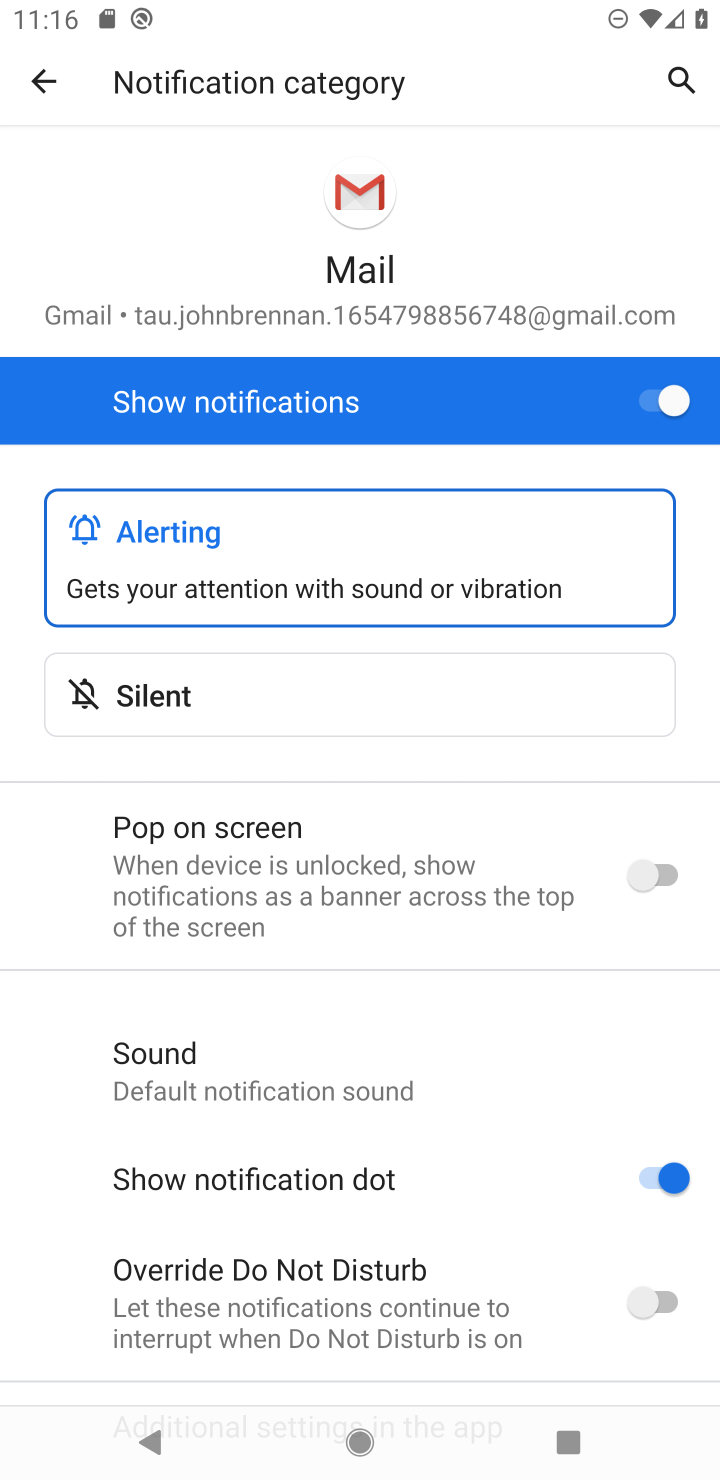
Step 34: click (664, 390)
Your task to perform on an android device: toggle notifications settings in the gmail app Image 35: 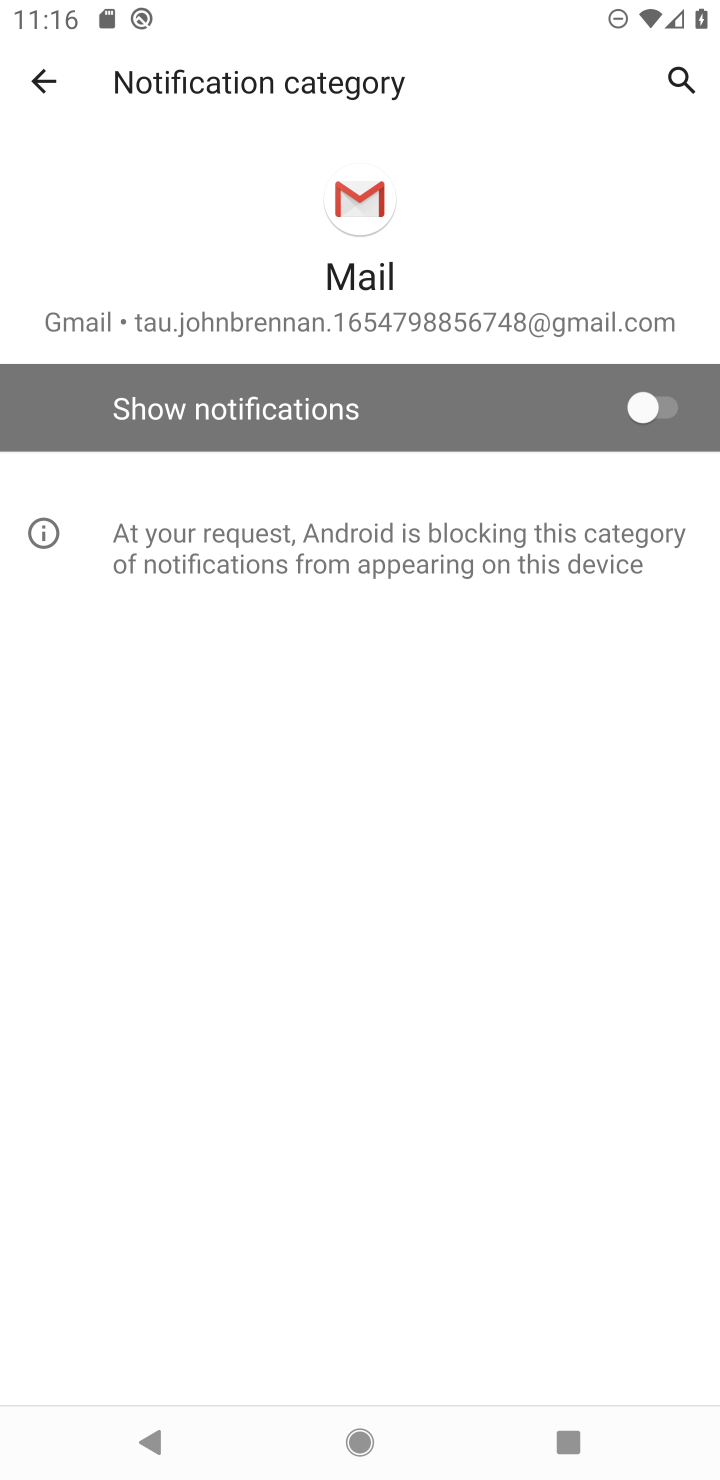
Step 35: task complete